Your task to perform on an android device: Clear the cart on newegg.com. Search for macbook on newegg.com, select the first entry, add it to the cart, then select checkout. Image 0: 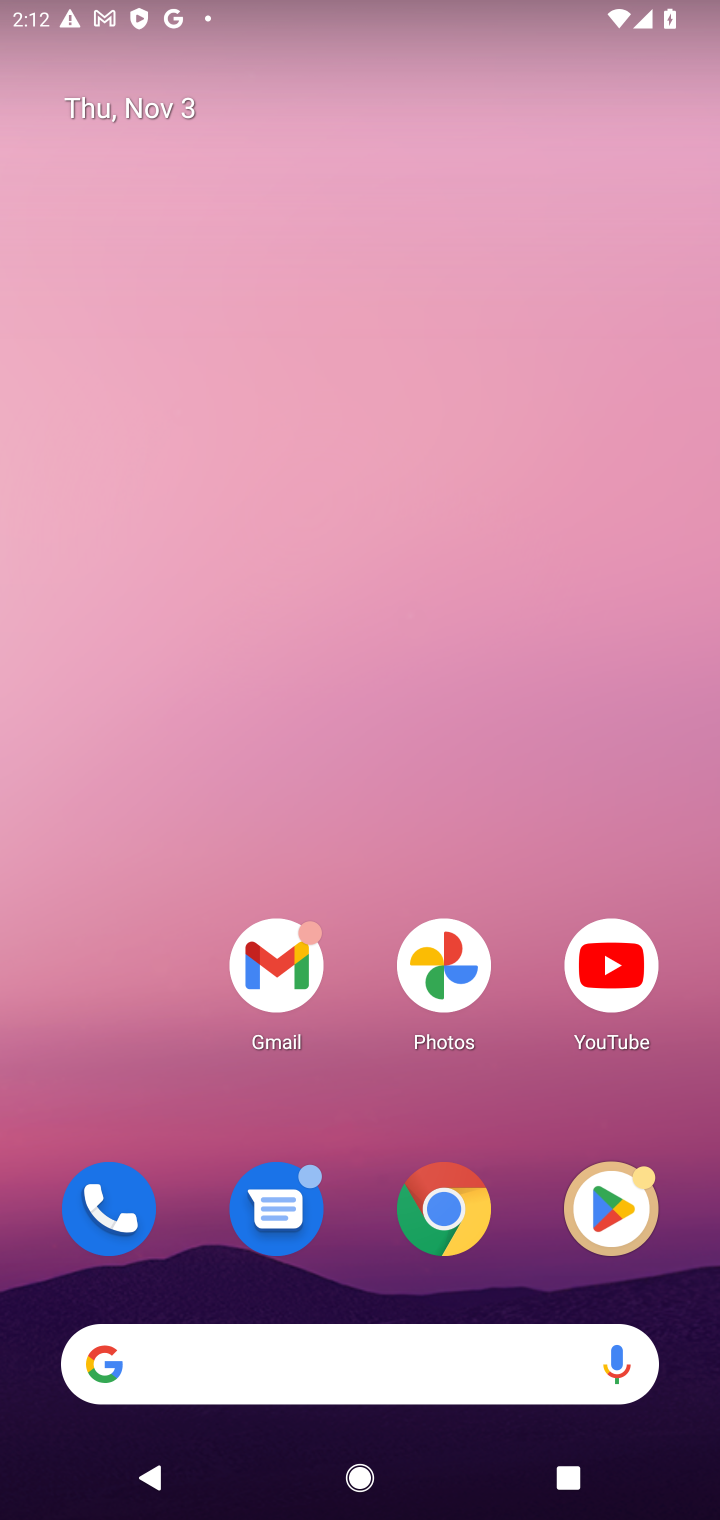
Step 0: click (234, 1358)
Your task to perform on an android device: Clear the cart on newegg.com. Search for macbook on newegg.com, select the first entry, add it to the cart, then select checkout. Image 1: 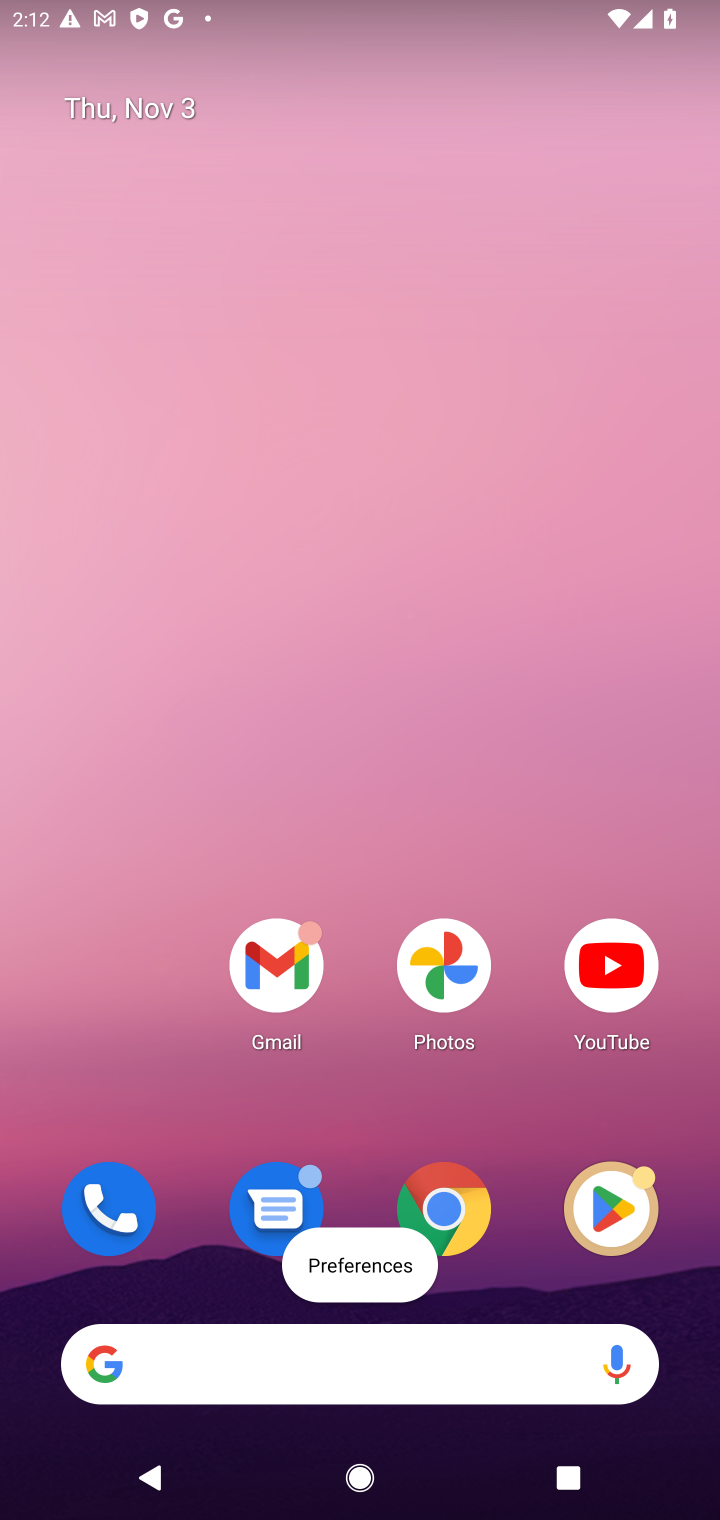
Step 1: click (236, 1358)
Your task to perform on an android device: Clear the cart on newegg.com. Search for macbook on newegg.com, select the first entry, add it to the cart, then select checkout. Image 2: 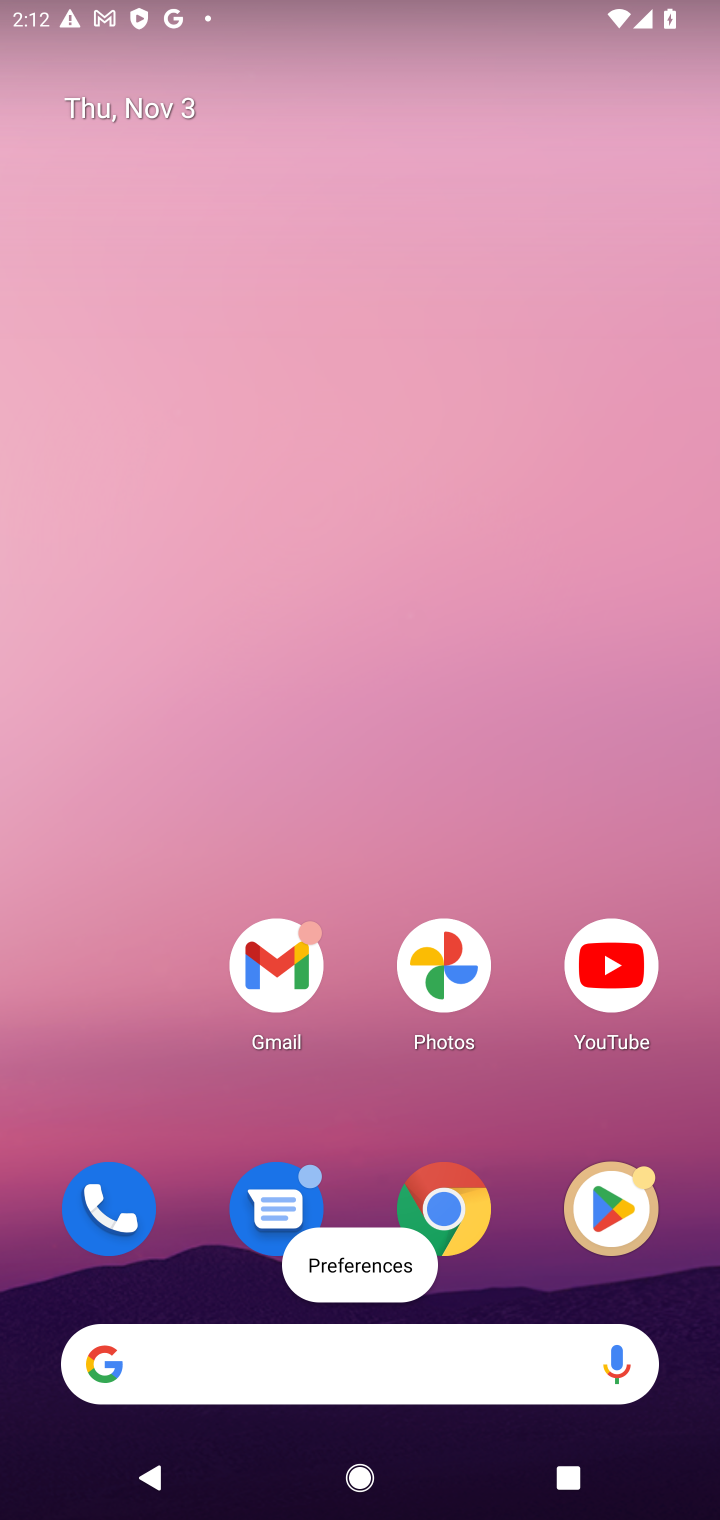
Step 2: click (236, 1358)
Your task to perform on an android device: Clear the cart on newegg.com. Search for macbook on newegg.com, select the first entry, add it to the cart, then select checkout. Image 3: 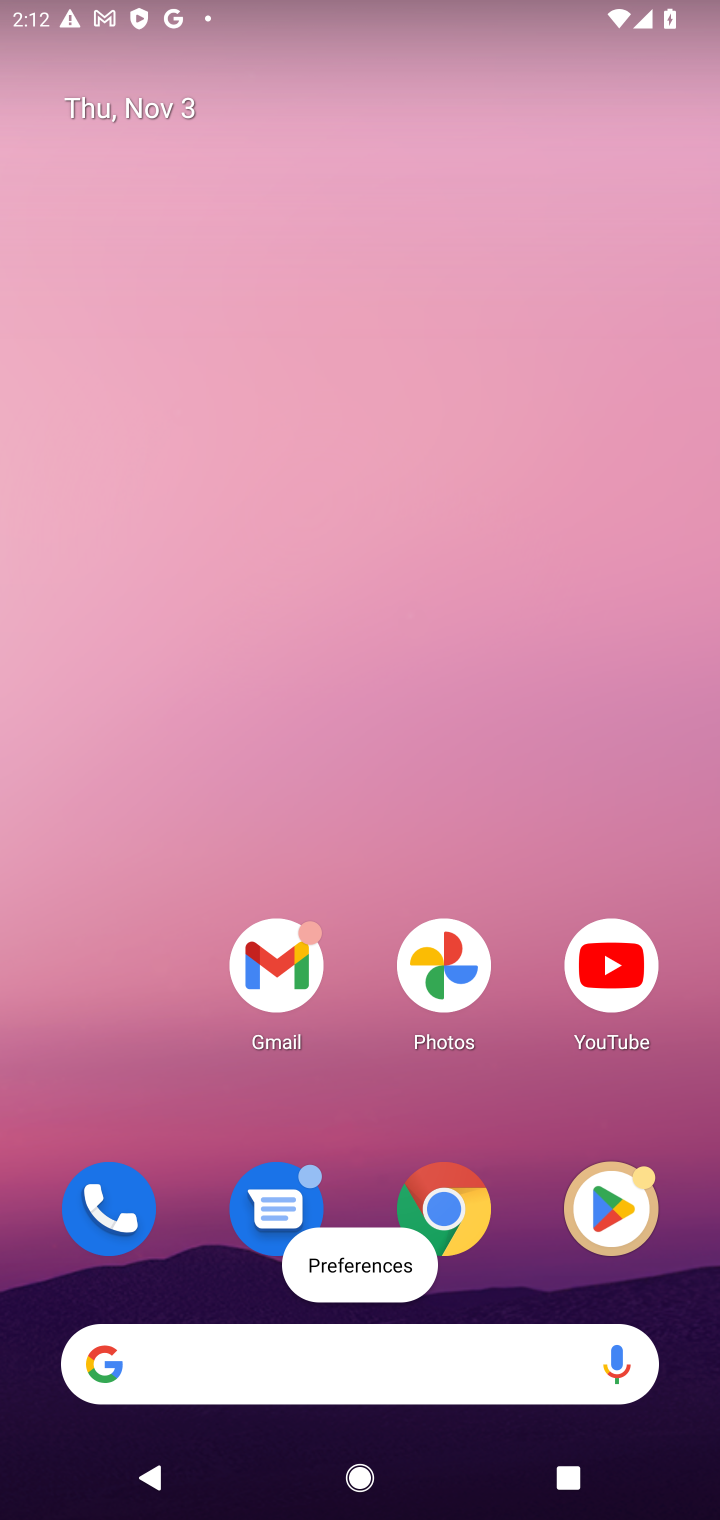
Step 3: click (103, 1363)
Your task to perform on an android device: Clear the cart on newegg.com. Search for macbook on newegg.com, select the first entry, add it to the cart, then select checkout. Image 4: 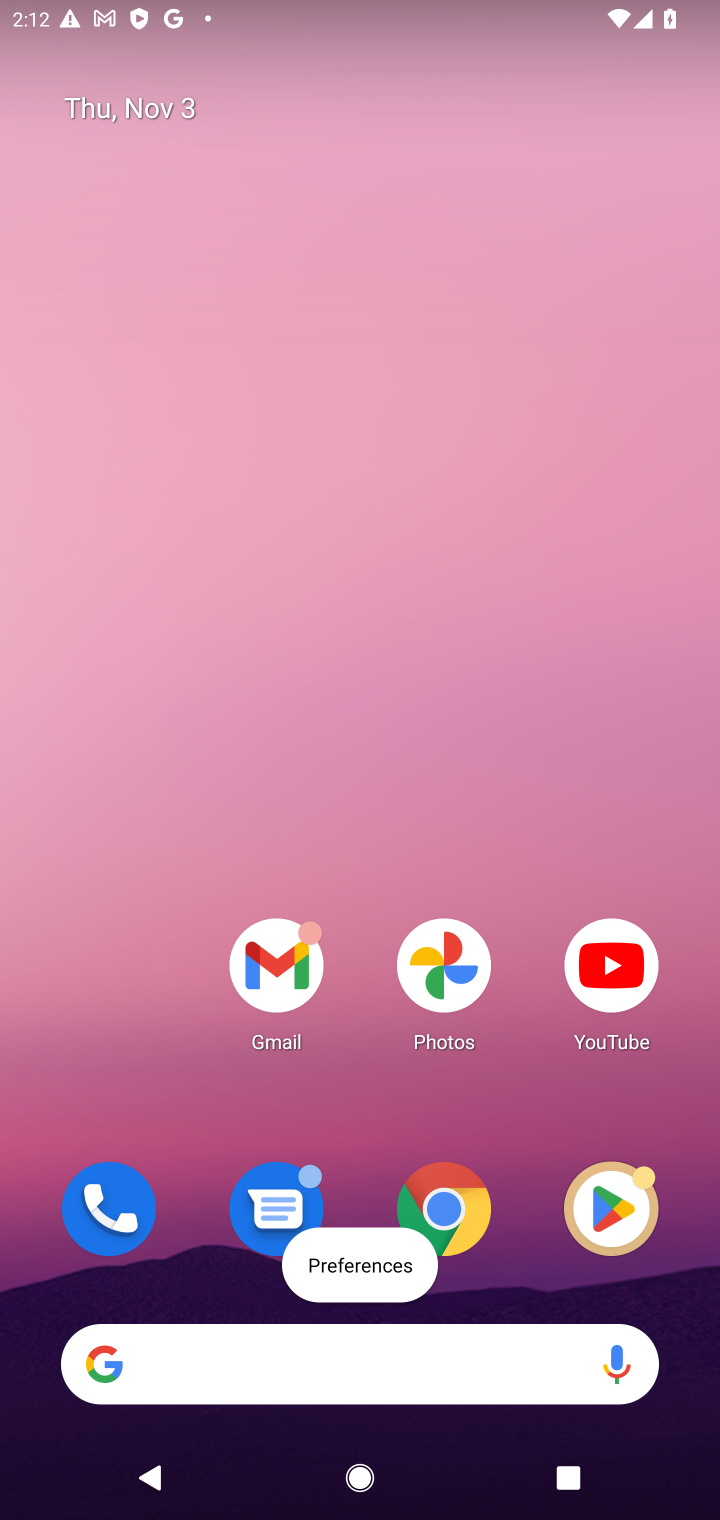
Step 4: click (103, 1363)
Your task to perform on an android device: Clear the cart on newegg.com. Search for macbook on newegg.com, select the first entry, add it to the cart, then select checkout. Image 5: 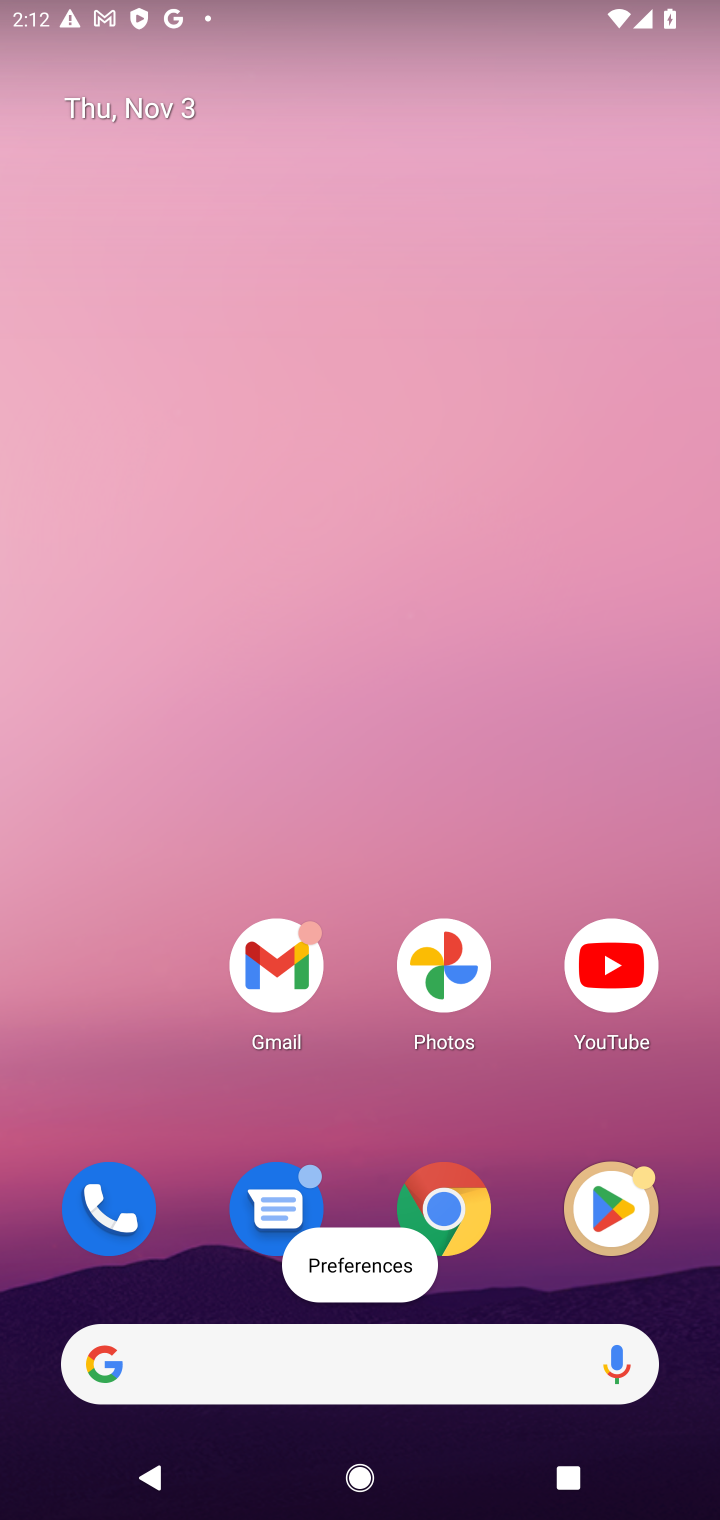
Step 5: click (176, 1341)
Your task to perform on an android device: Clear the cart on newegg.com. Search for macbook on newegg.com, select the first entry, add it to the cart, then select checkout. Image 6: 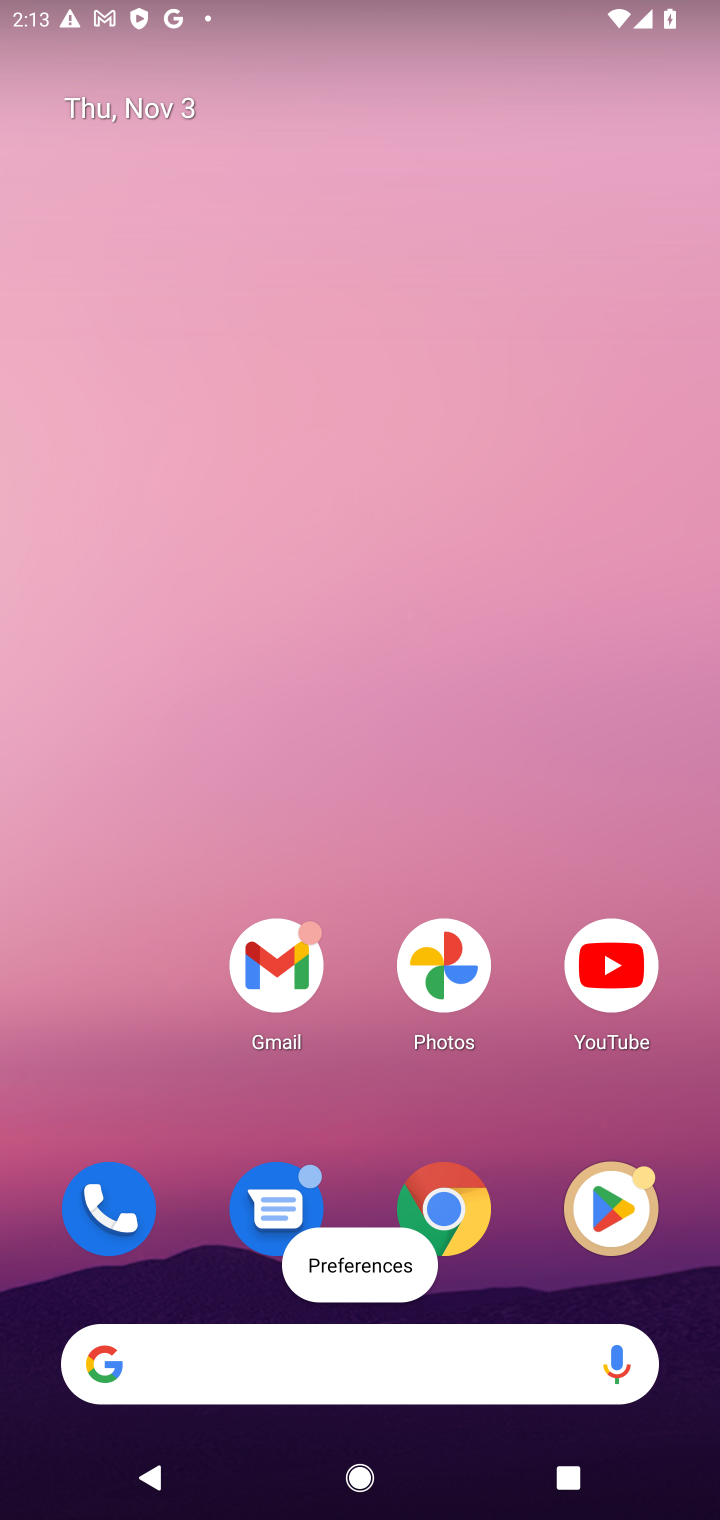
Step 6: click (468, 1359)
Your task to perform on an android device: Clear the cart on newegg.com. Search for macbook on newegg.com, select the first entry, add it to the cart, then select checkout. Image 7: 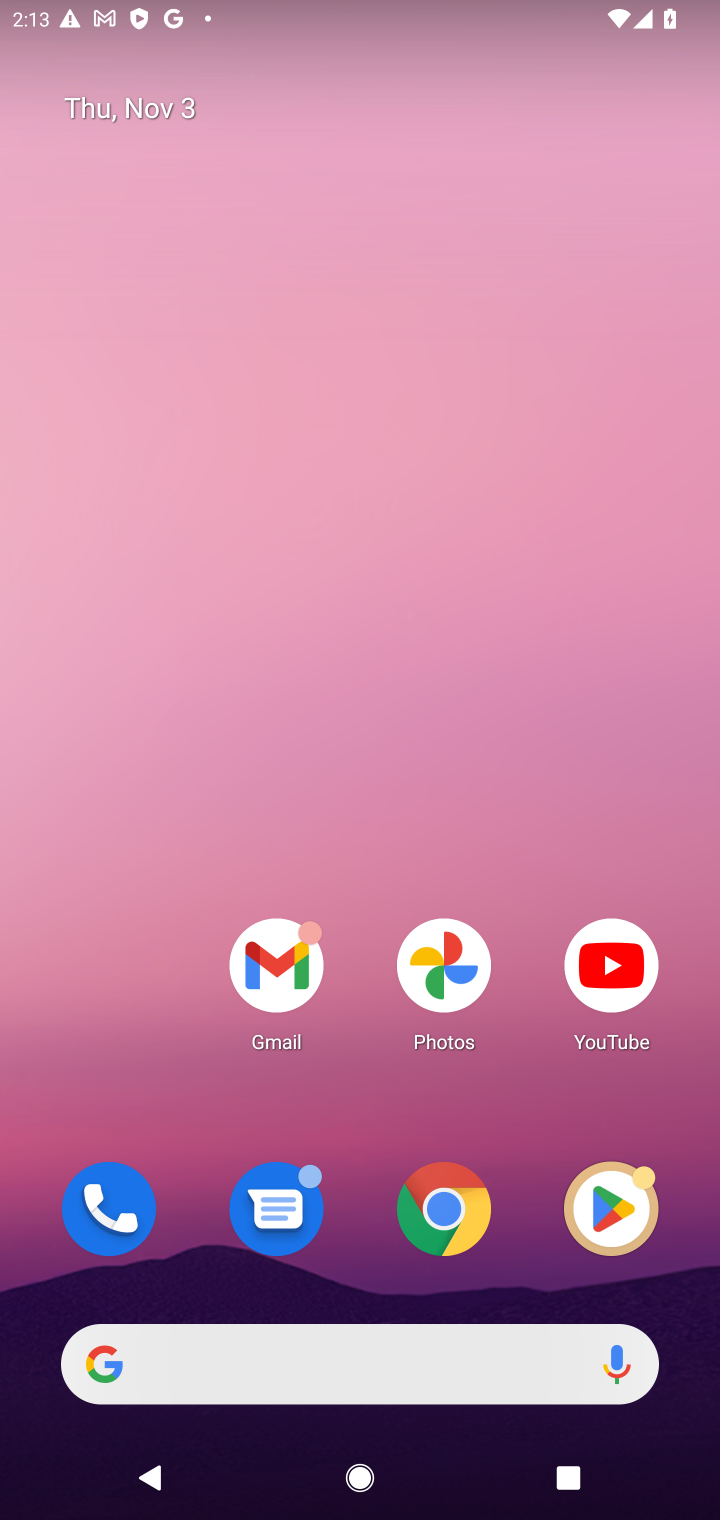
Step 7: click (445, 1223)
Your task to perform on an android device: Clear the cart on newegg.com. Search for macbook on newegg.com, select the first entry, add it to the cart, then select checkout. Image 8: 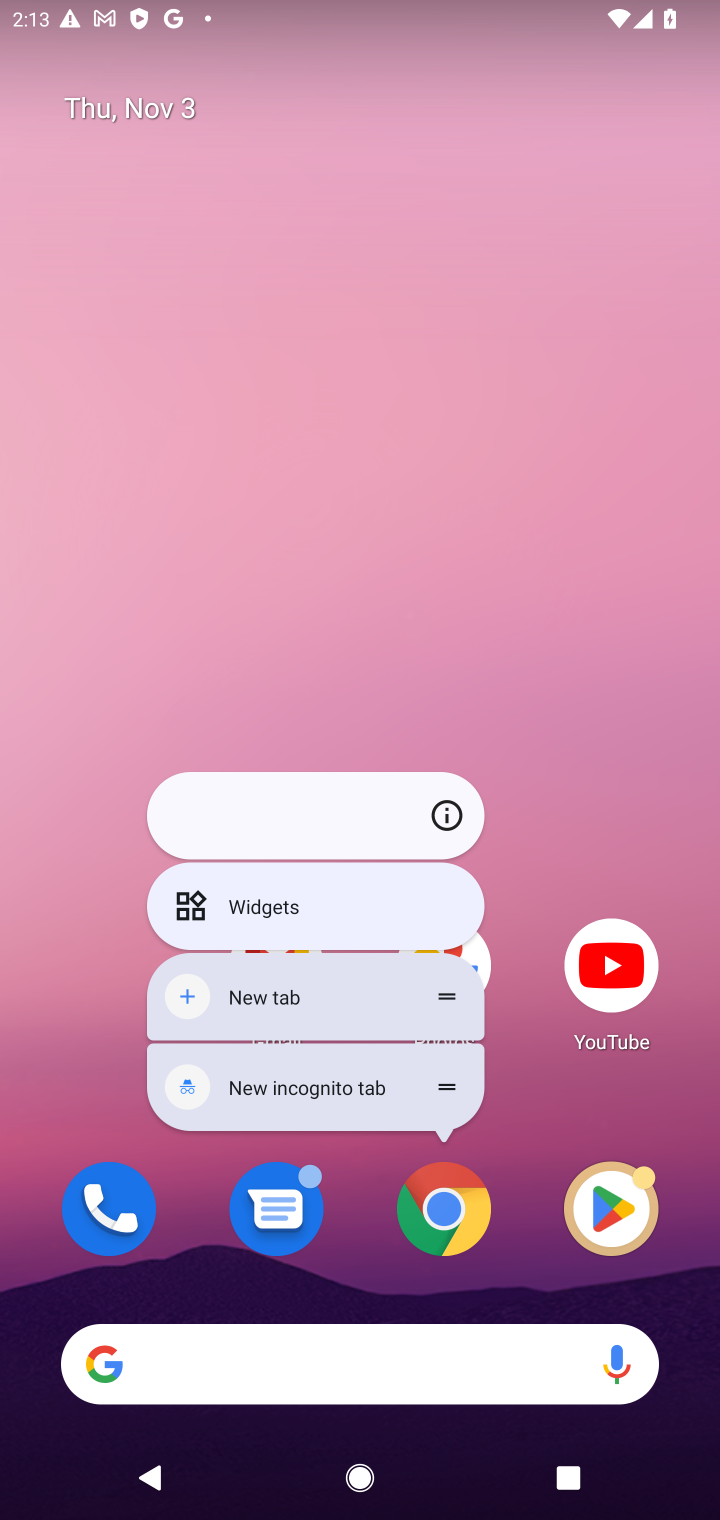
Step 8: click (445, 1223)
Your task to perform on an android device: Clear the cart on newegg.com. Search for macbook on newegg.com, select the first entry, add it to the cart, then select checkout. Image 9: 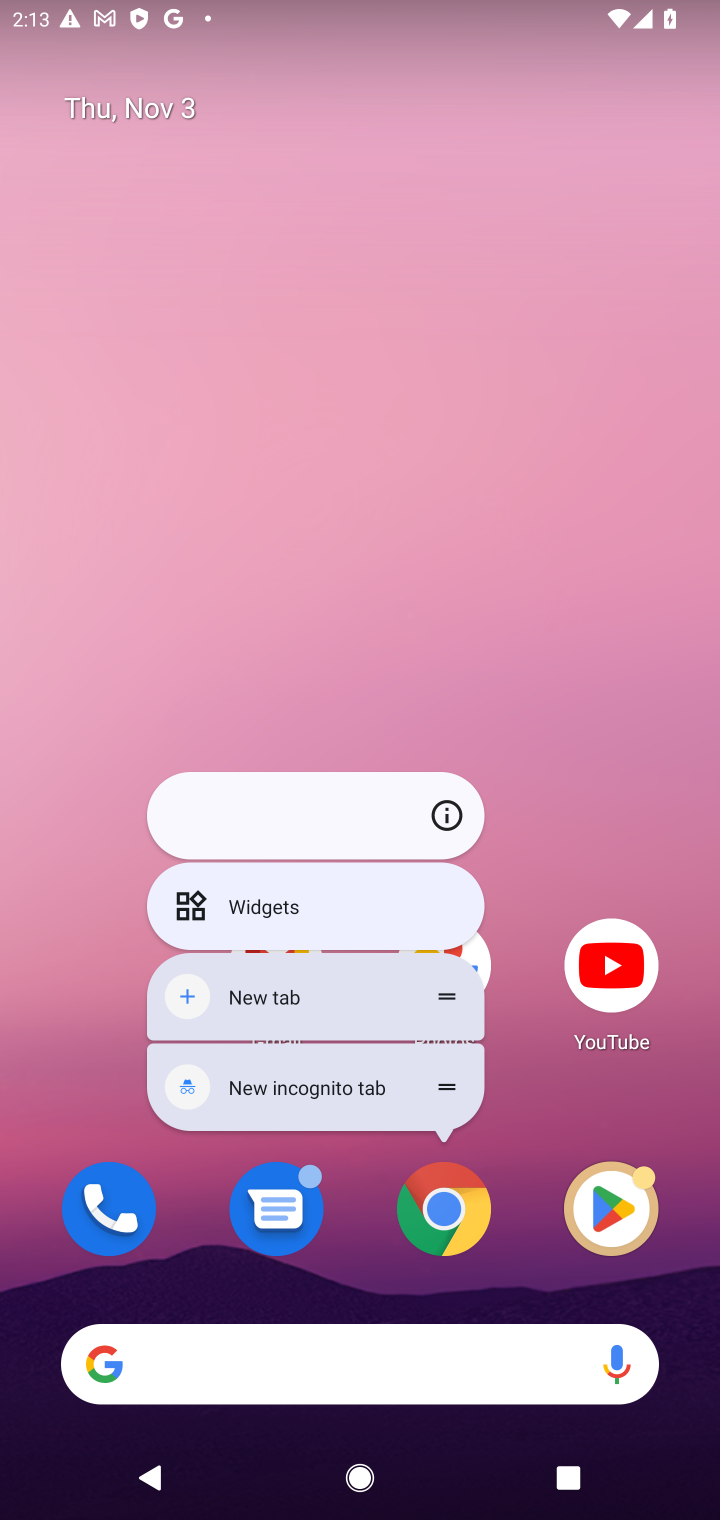
Step 9: click (445, 1223)
Your task to perform on an android device: Clear the cart on newegg.com. Search for macbook on newegg.com, select the first entry, add it to the cart, then select checkout. Image 10: 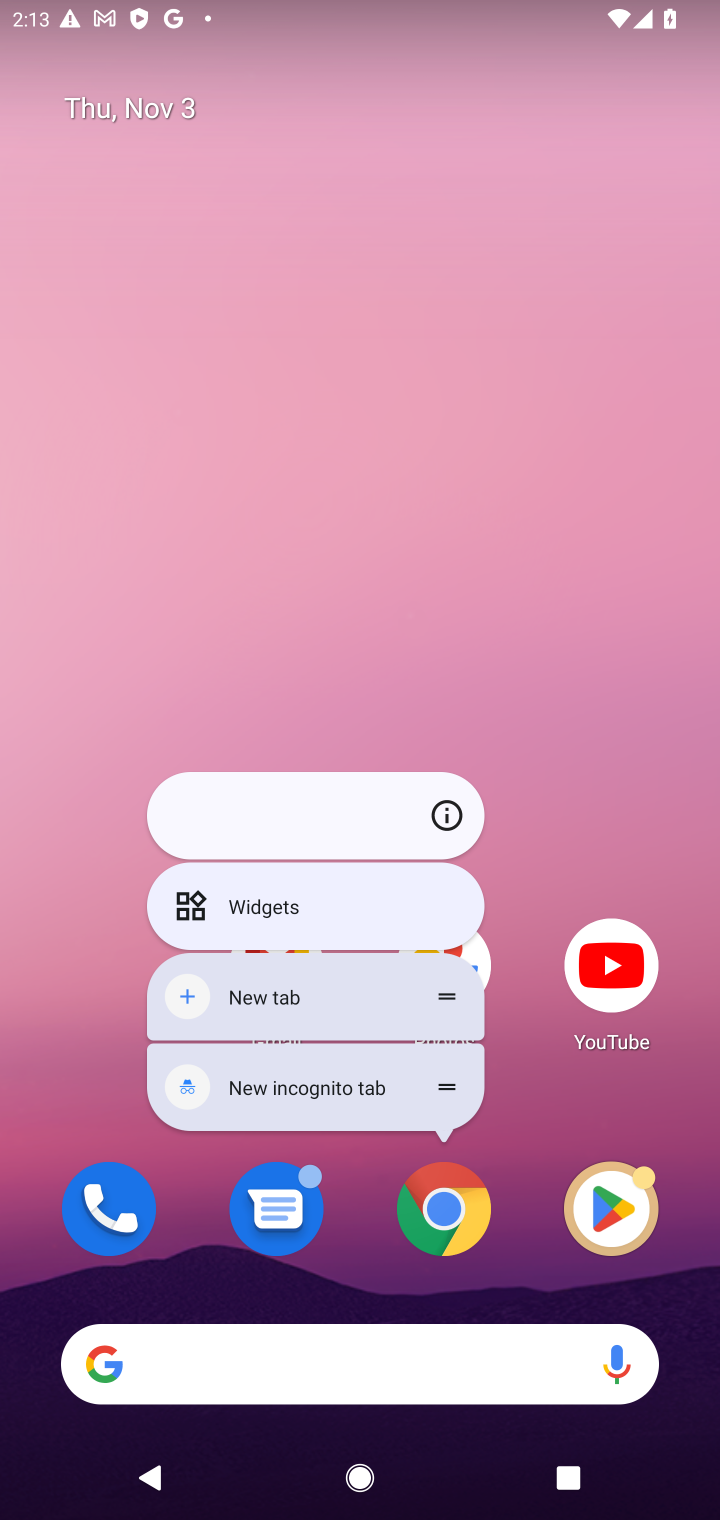
Step 10: click (461, 1239)
Your task to perform on an android device: Clear the cart on newegg.com. Search for macbook on newegg.com, select the first entry, add it to the cart, then select checkout. Image 11: 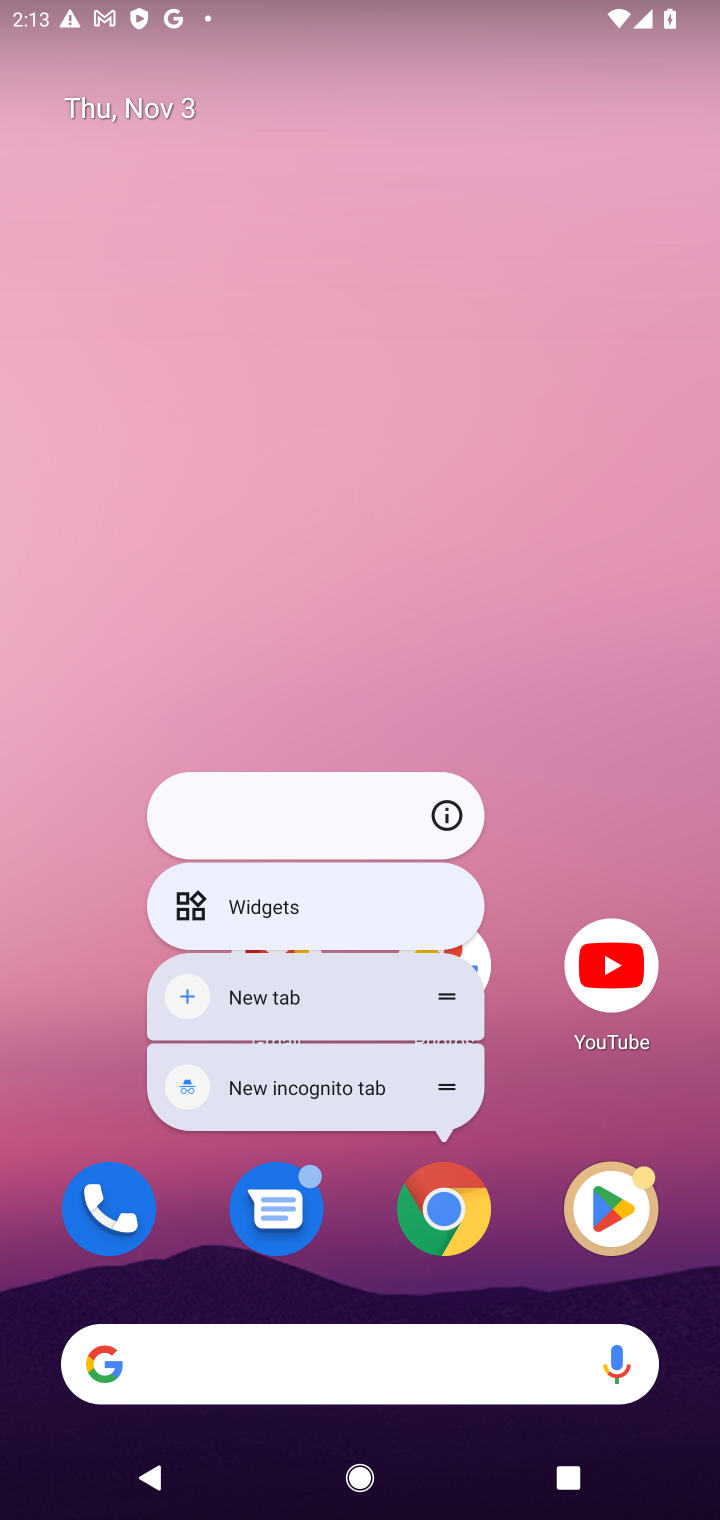
Step 11: click (440, 554)
Your task to perform on an android device: Clear the cart on newegg.com. Search for macbook on newegg.com, select the first entry, add it to the cart, then select checkout. Image 12: 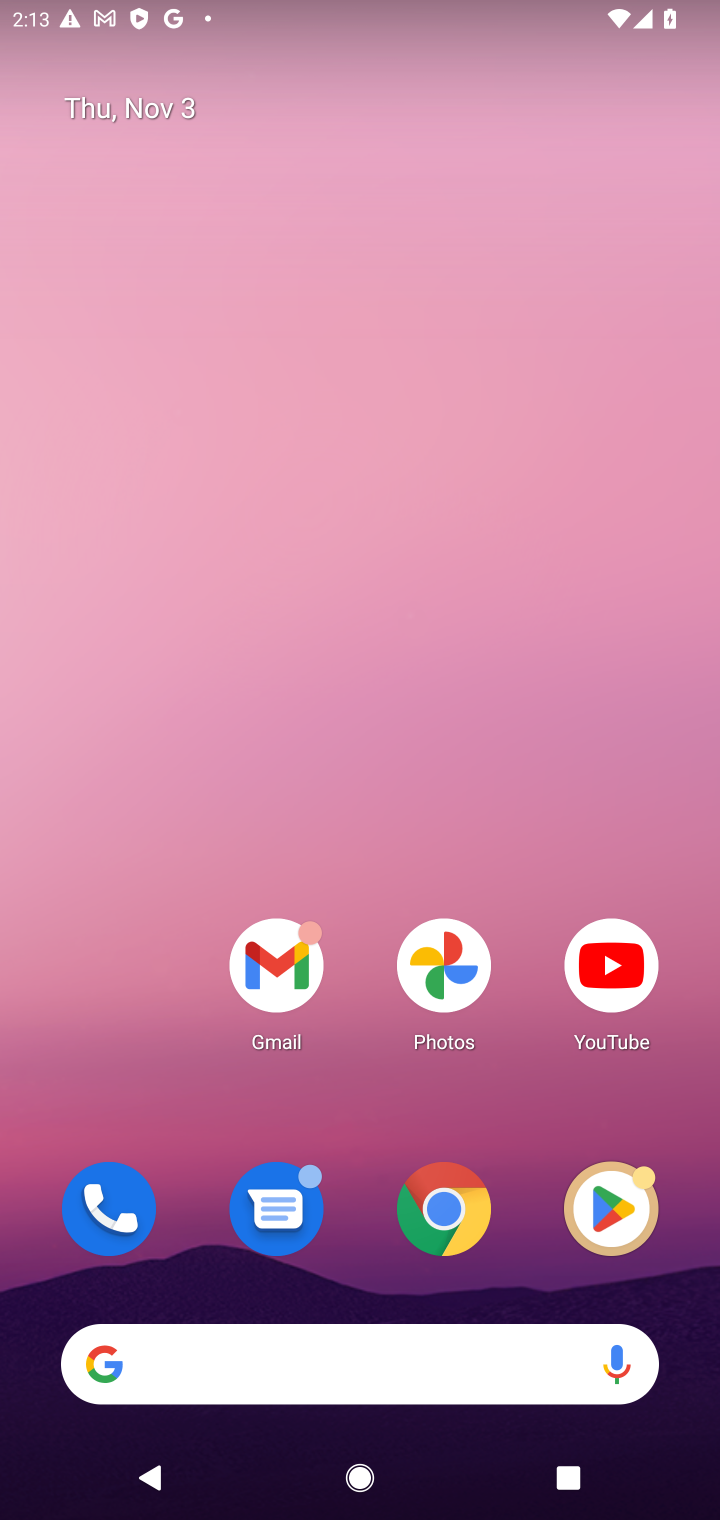
Step 12: click (449, 1216)
Your task to perform on an android device: Clear the cart on newegg.com. Search for macbook on newegg.com, select the first entry, add it to the cart, then select checkout. Image 13: 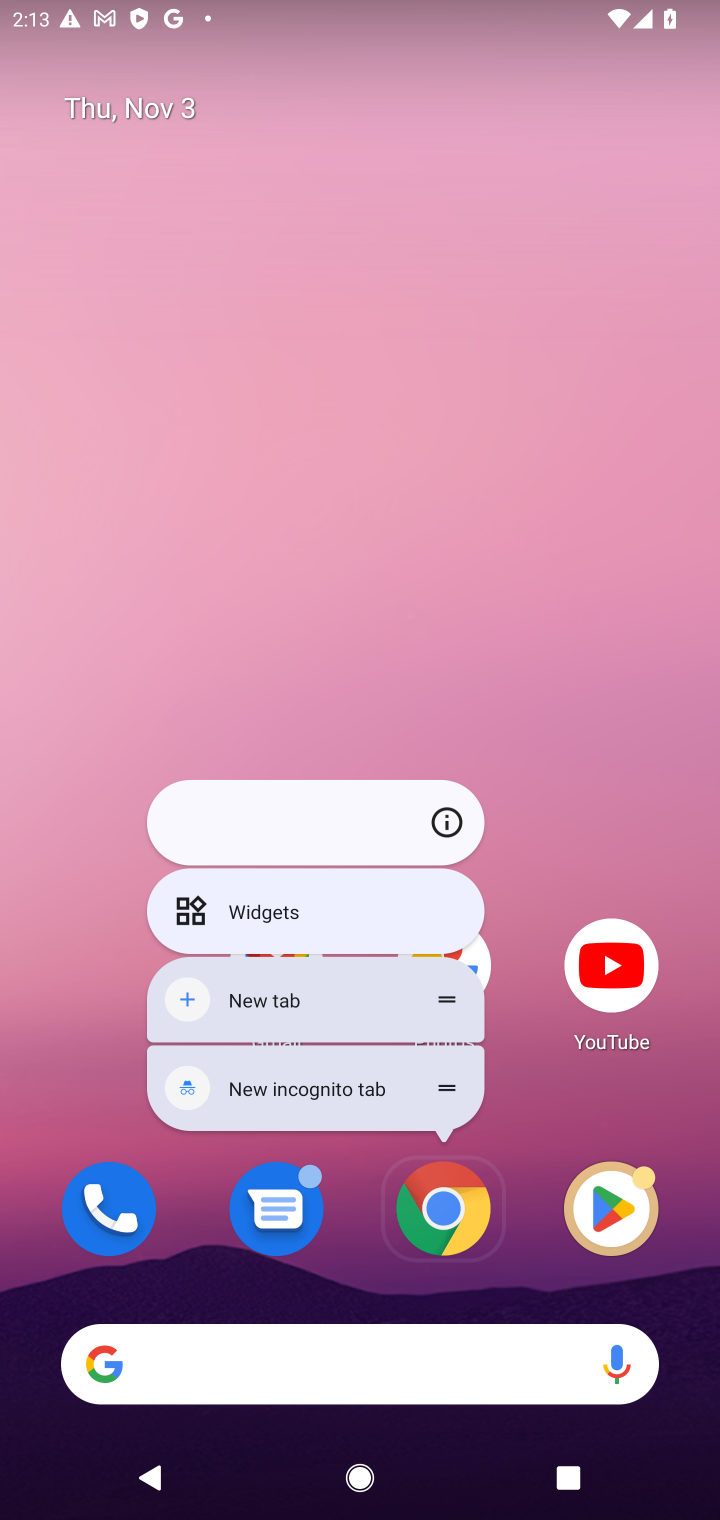
Step 13: click (449, 1216)
Your task to perform on an android device: Clear the cart on newegg.com. Search for macbook on newegg.com, select the first entry, add it to the cart, then select checkout. Image 14: 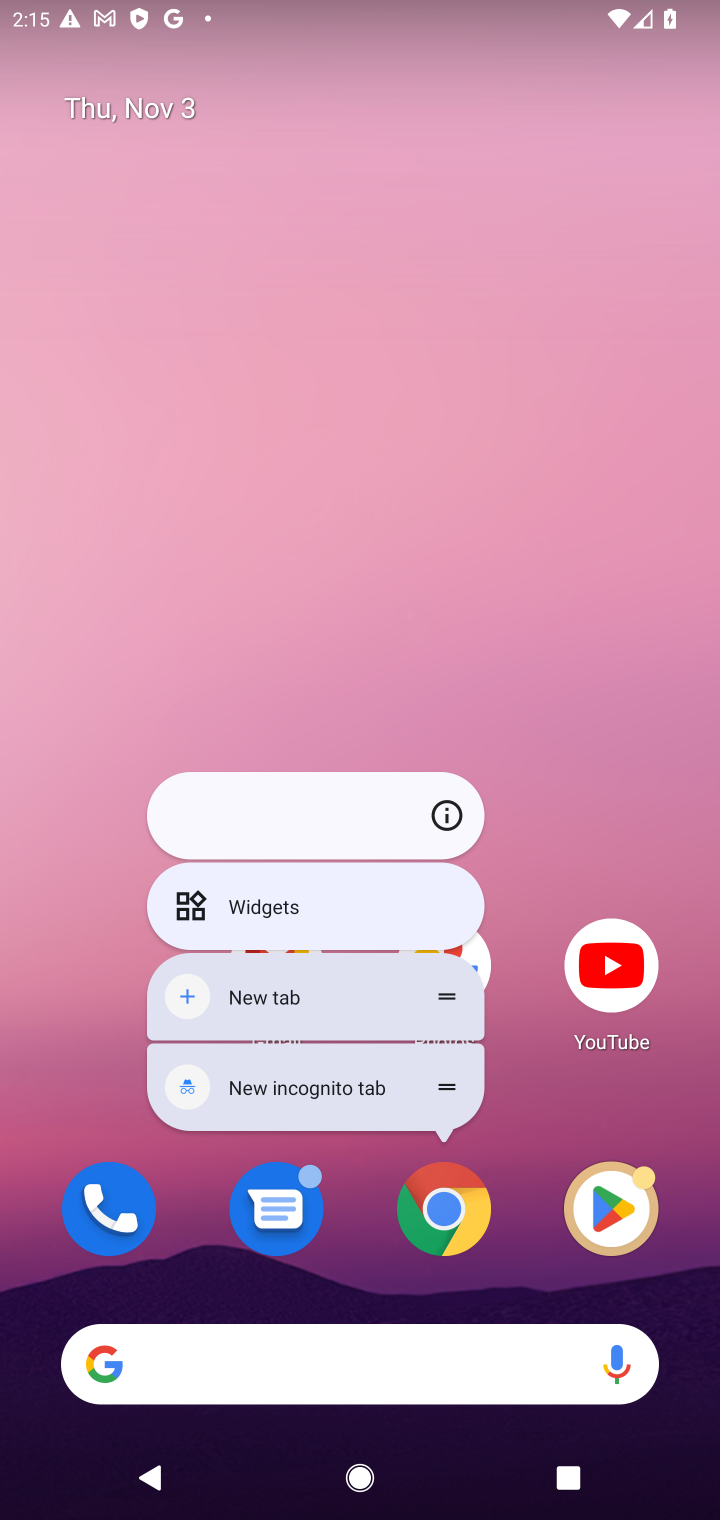
Step 14: click (608, 1235)
Your task to perform on an android device: Clear the cart on newegg.com. Search for macbook on newegg.com, select the first entry, add it to the cart, then select checkout. Image 15: 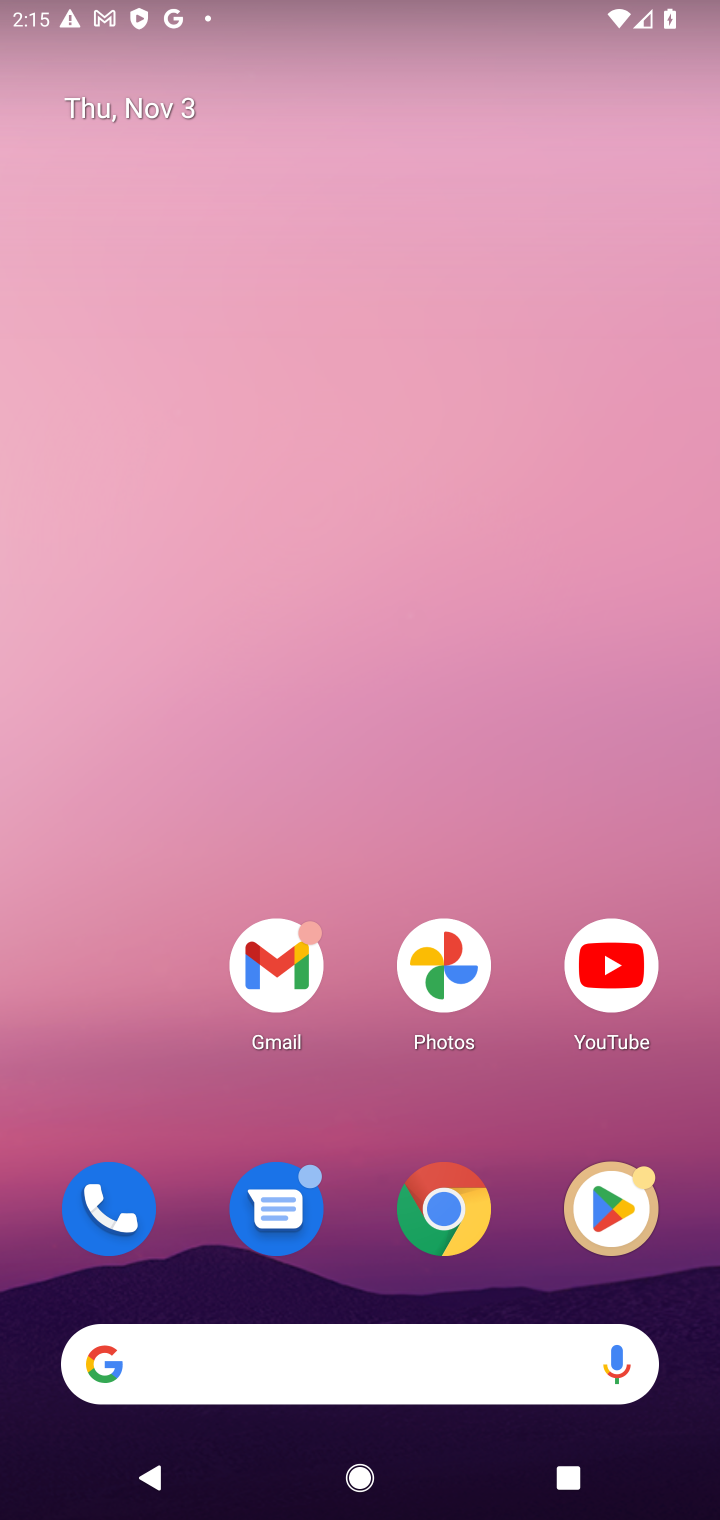
Step 15: click (475, 1217)
Your task to perform on an android device: Clear the cart on newegg.com. Search for macbook on newegg.com, select the first entry, add it to the cart, then select checkout. Image 16: 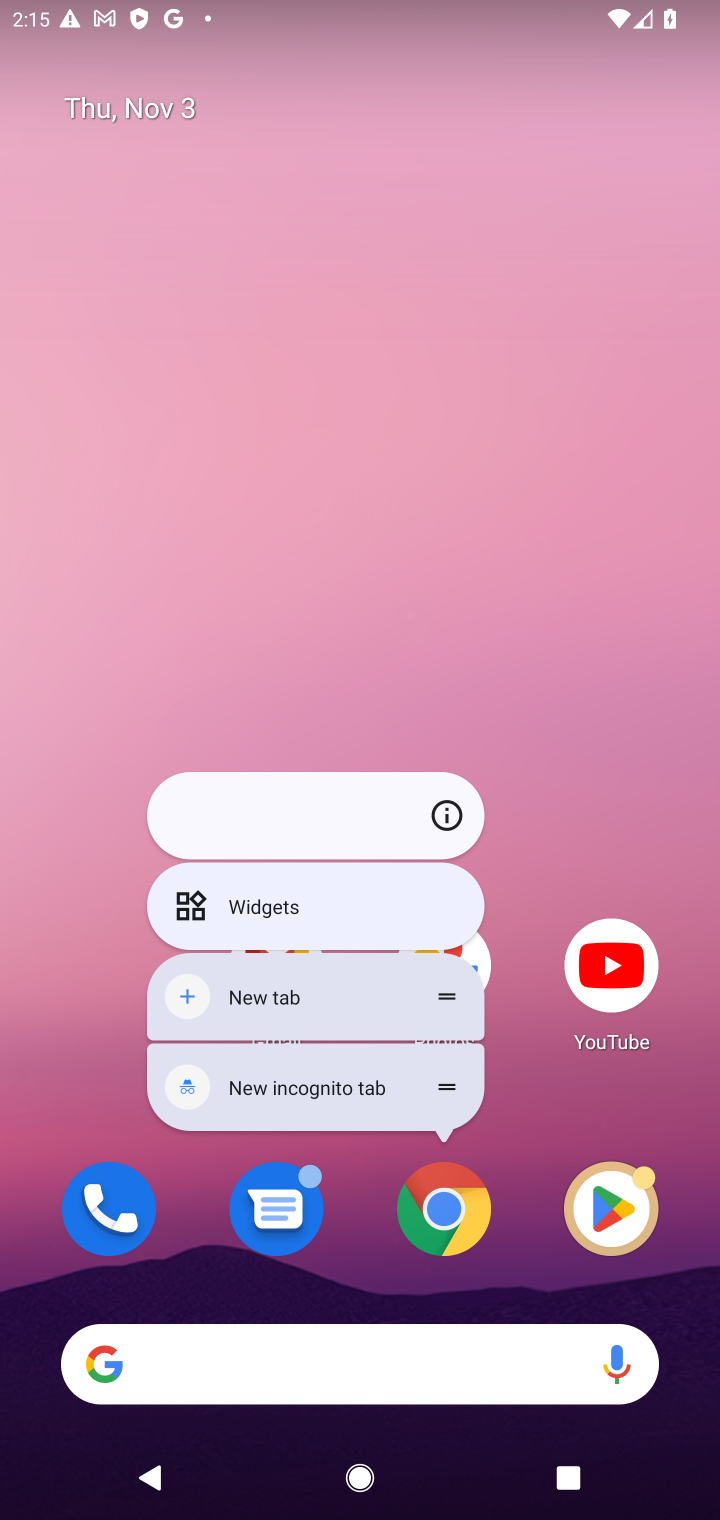
Step 16: click (472, 1219)
Your task to perform on an android device: Clear the cart on newegg.com. Search for macbook on newegg.com, select the first entry, add it to the cart, then select checkout. Image 17: 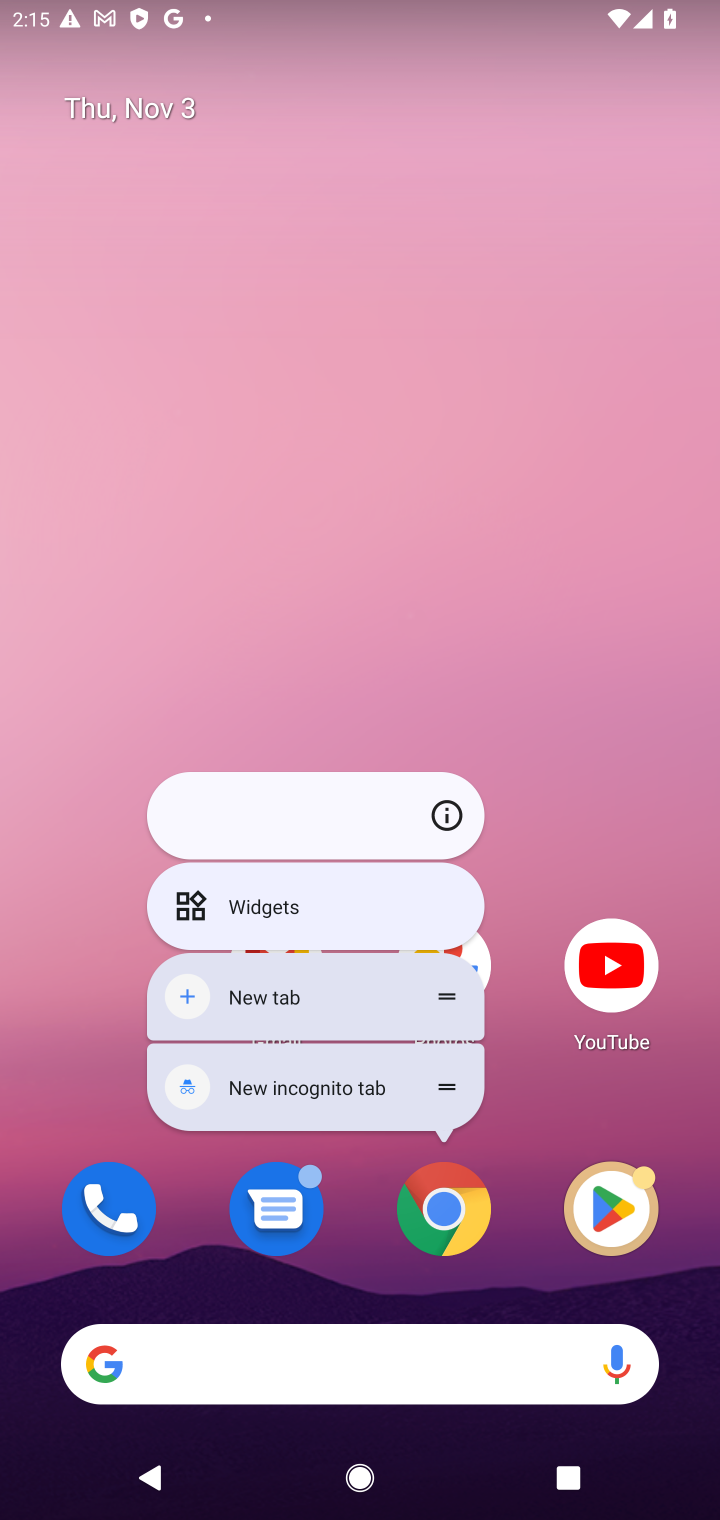
Step 17: click (472, 1219)
Your task to perform on an android device: Clear the cart on newegg.com. Search for macbook on newegg.com, select the first entry, add it to the cart, then select checkout. Image 18: 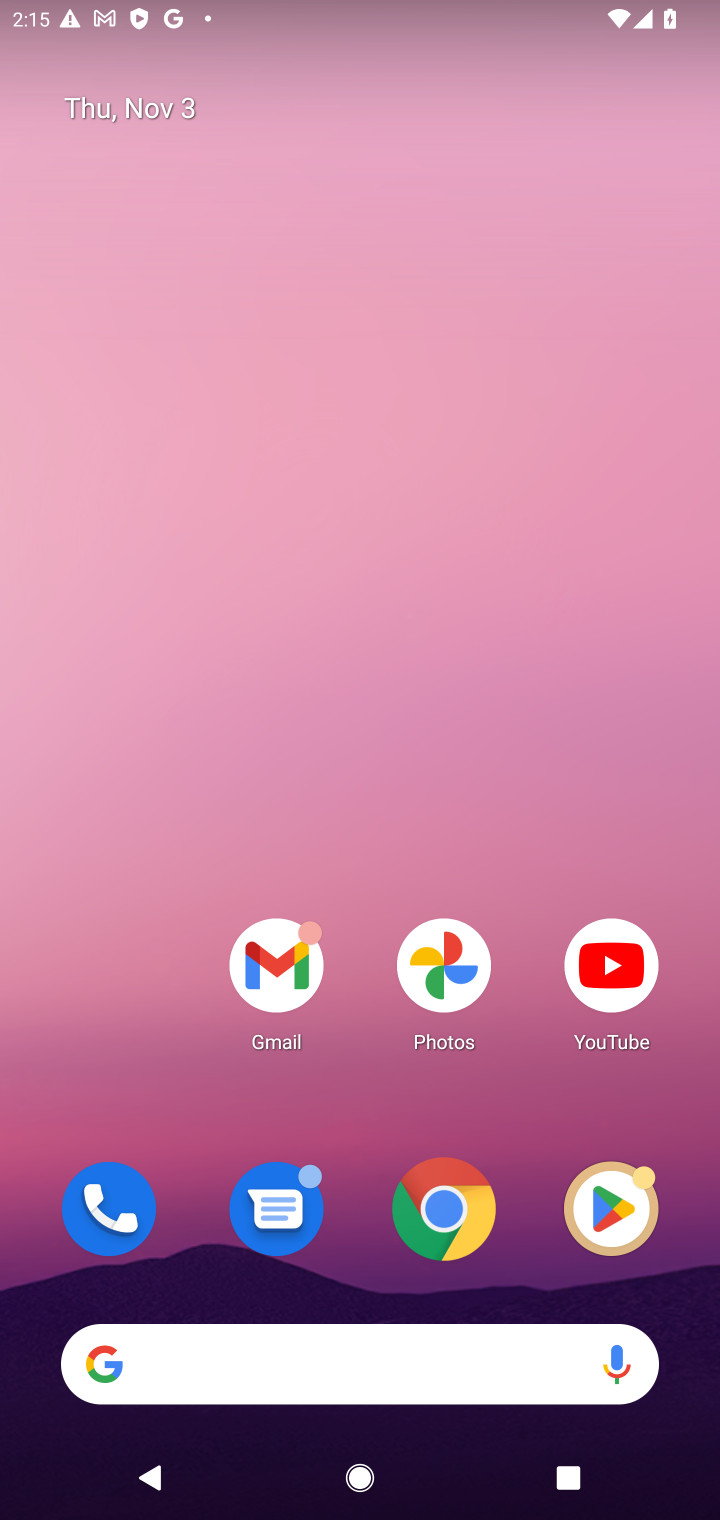
Step 18: click (454, 1210)
Your task to perform on an android device: Clear the cart on newegg.com. Search for macbook on newegg.com, select the first entry, add it to the cart, then select checkout. Image 19: 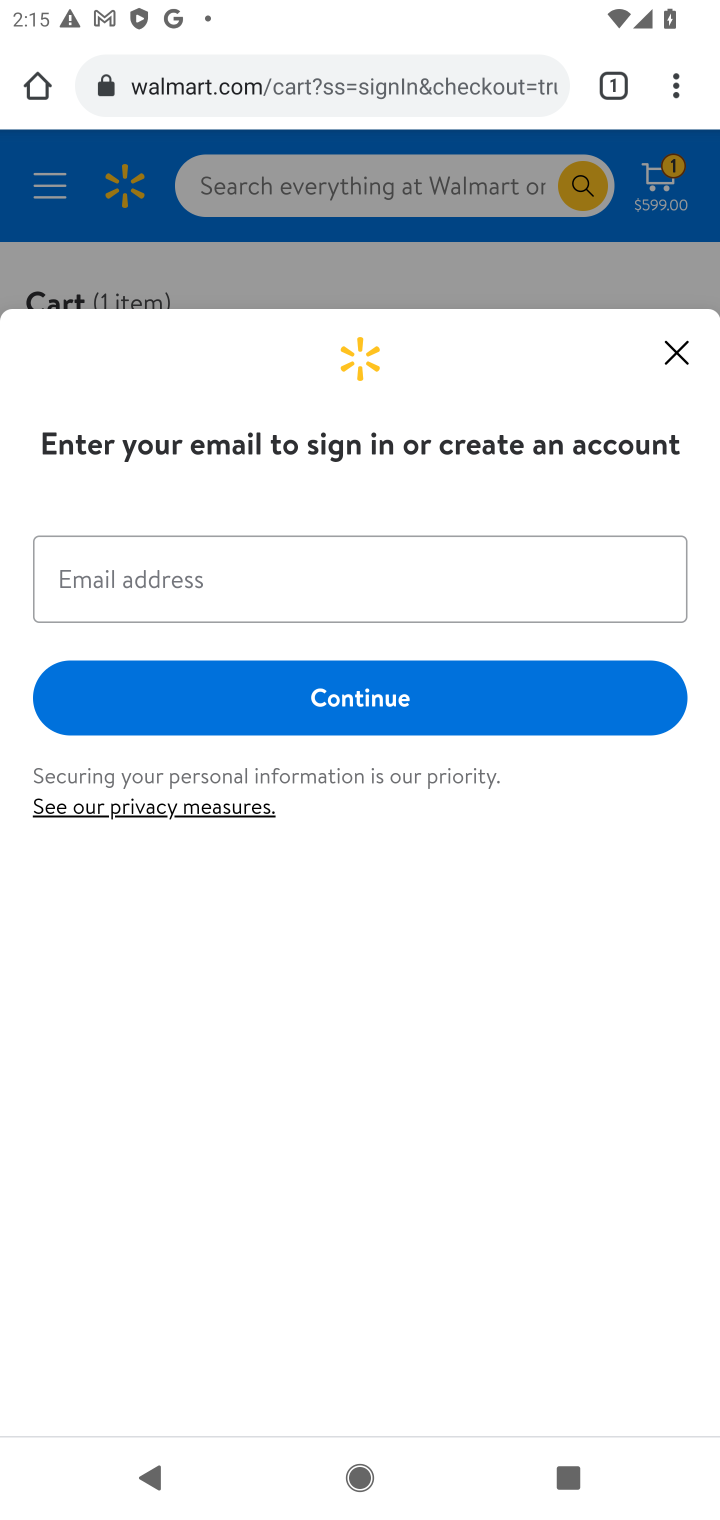
Step 19: click (226, 98)
Your task to perform on an android device: Clear the cart on newegg.com. Search for macbook on newegg.com, select the first entry, add it to the cart, then select checkout. Image 20: 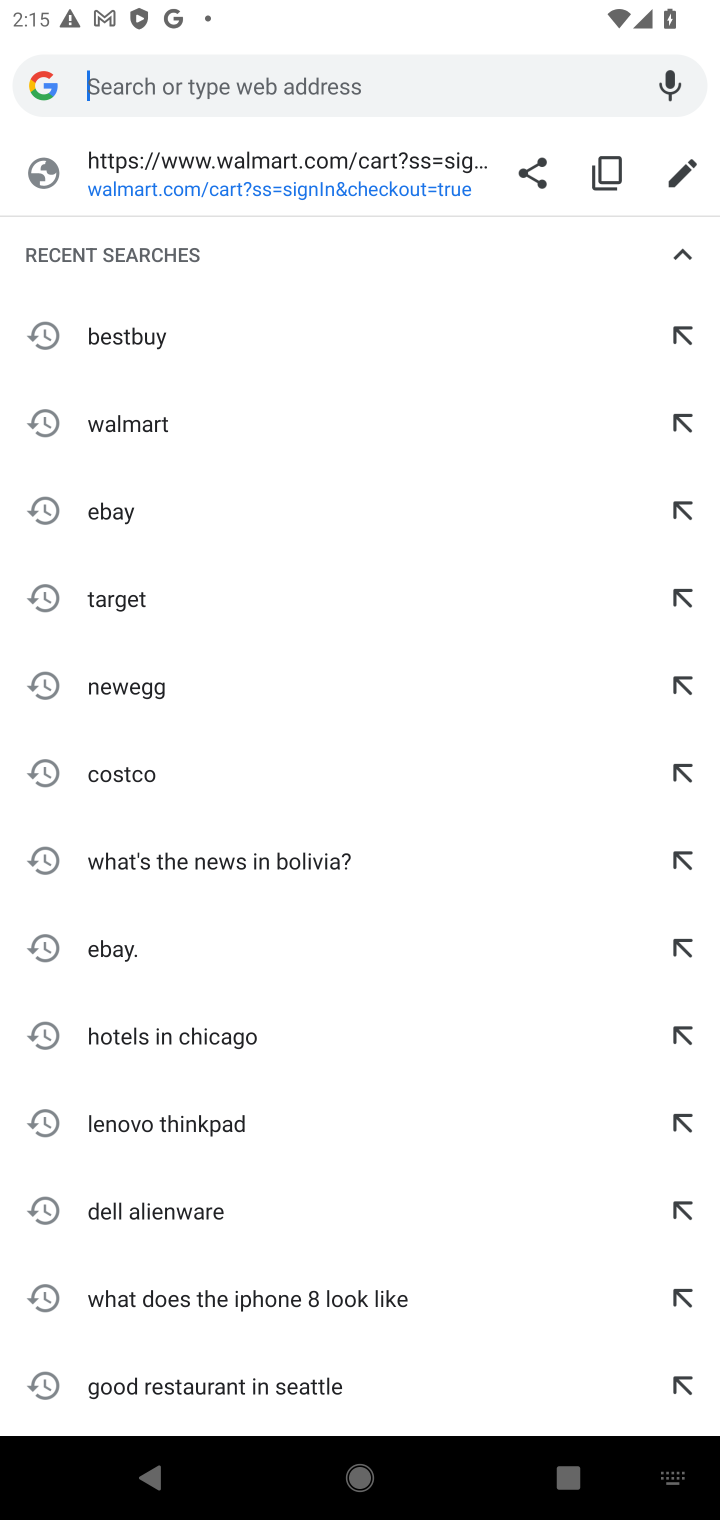
Step 20: type "newegg.com"
Your task to perform on an android device: Clear the cart on newegg.com. Search for macbook on newegg.com, select the first entry, add it to the cart, then select checkout. Image 21: 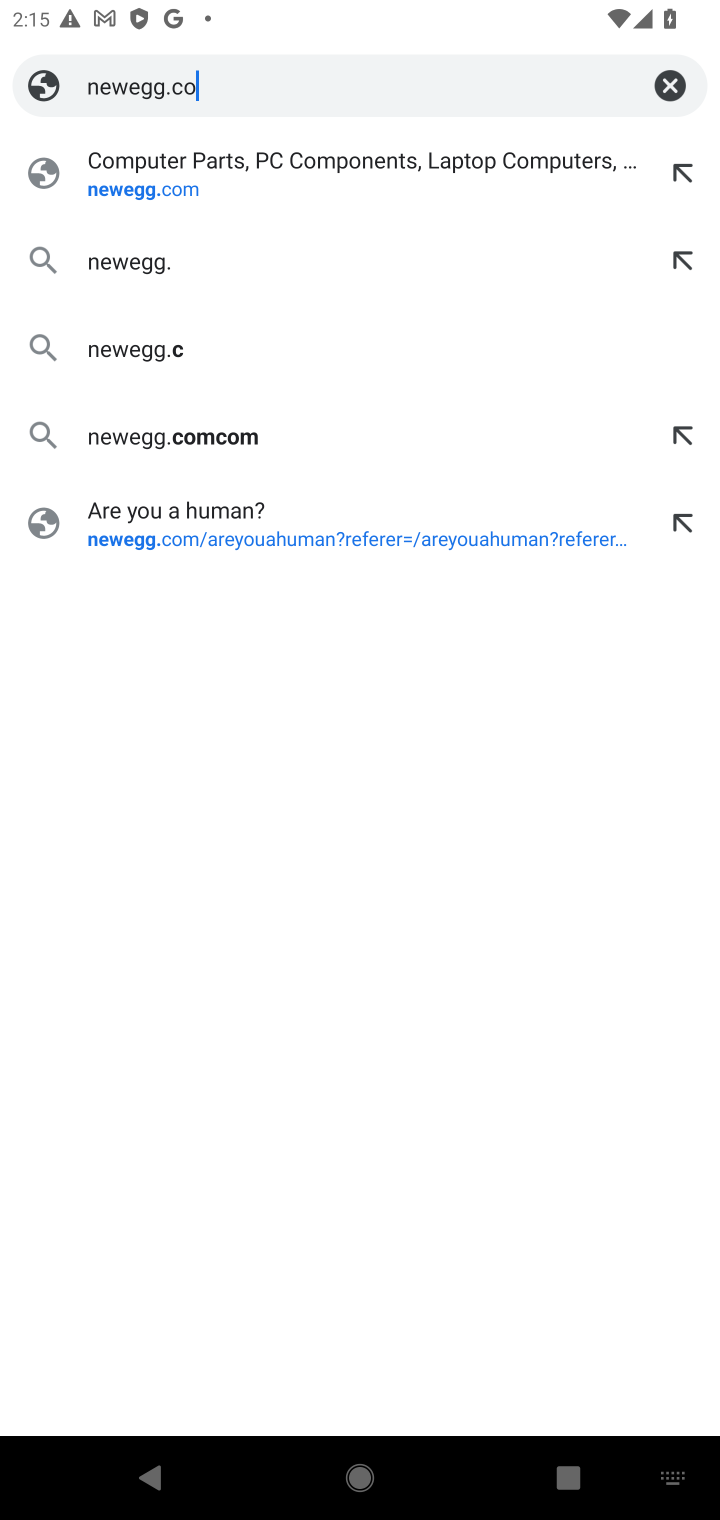
Step 21: type ""
Your task to perform on an android device: Clear the cart on newegg.com. Search for macbook on newegg.com, select the first entry, add it to the cart, then select checkout. Image 22: 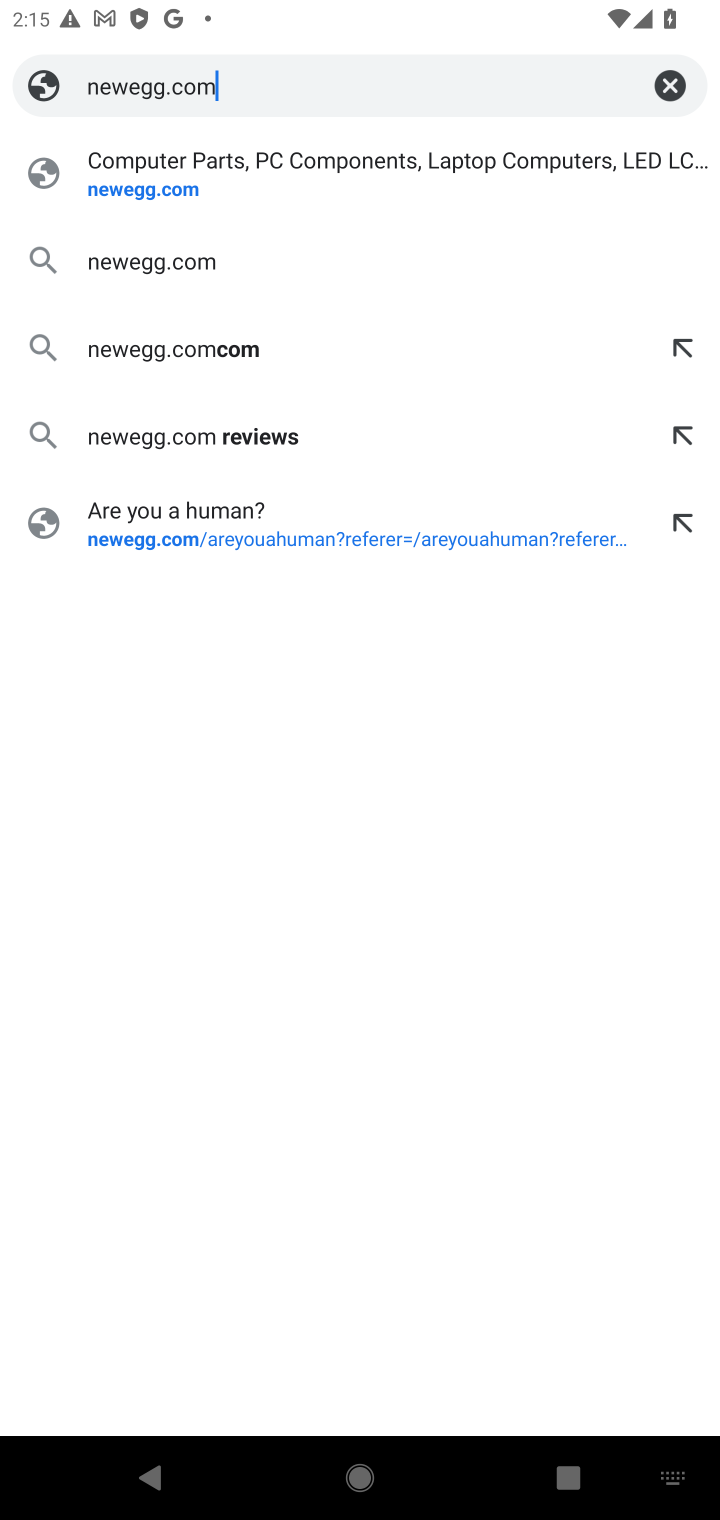
Step 22: click (160, 174)
Your task to perform on an android device: Clear the cart on newegg.com. Search for macbook on newegg.com, select the first entry, add it to the cart, then select checkout. Image 23: 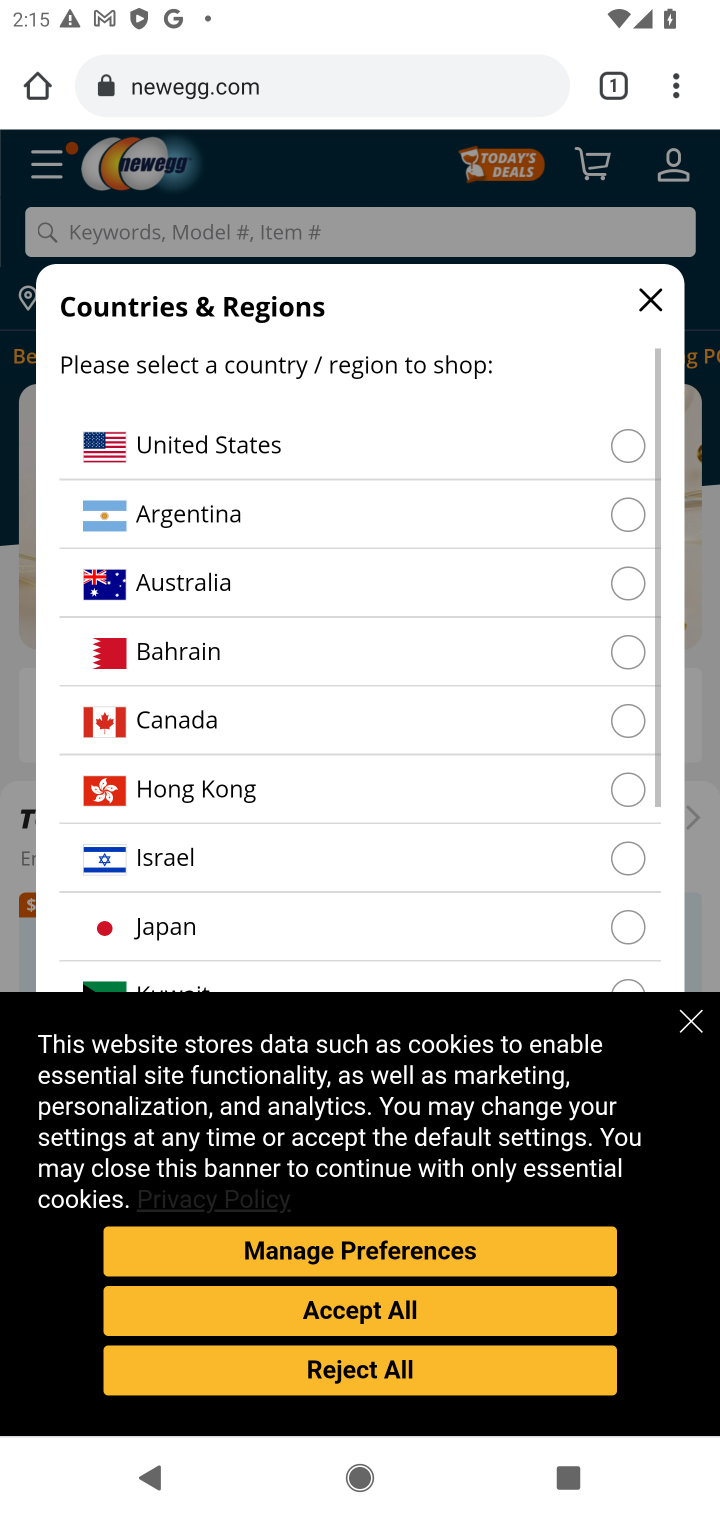
Step 23: click (628, 441)
Your task to perform on an android device: Clear the cart on newegg.com. Search for macbook on newegg.com, select the first entry, add it to the cart, then select checkout. Image 24: 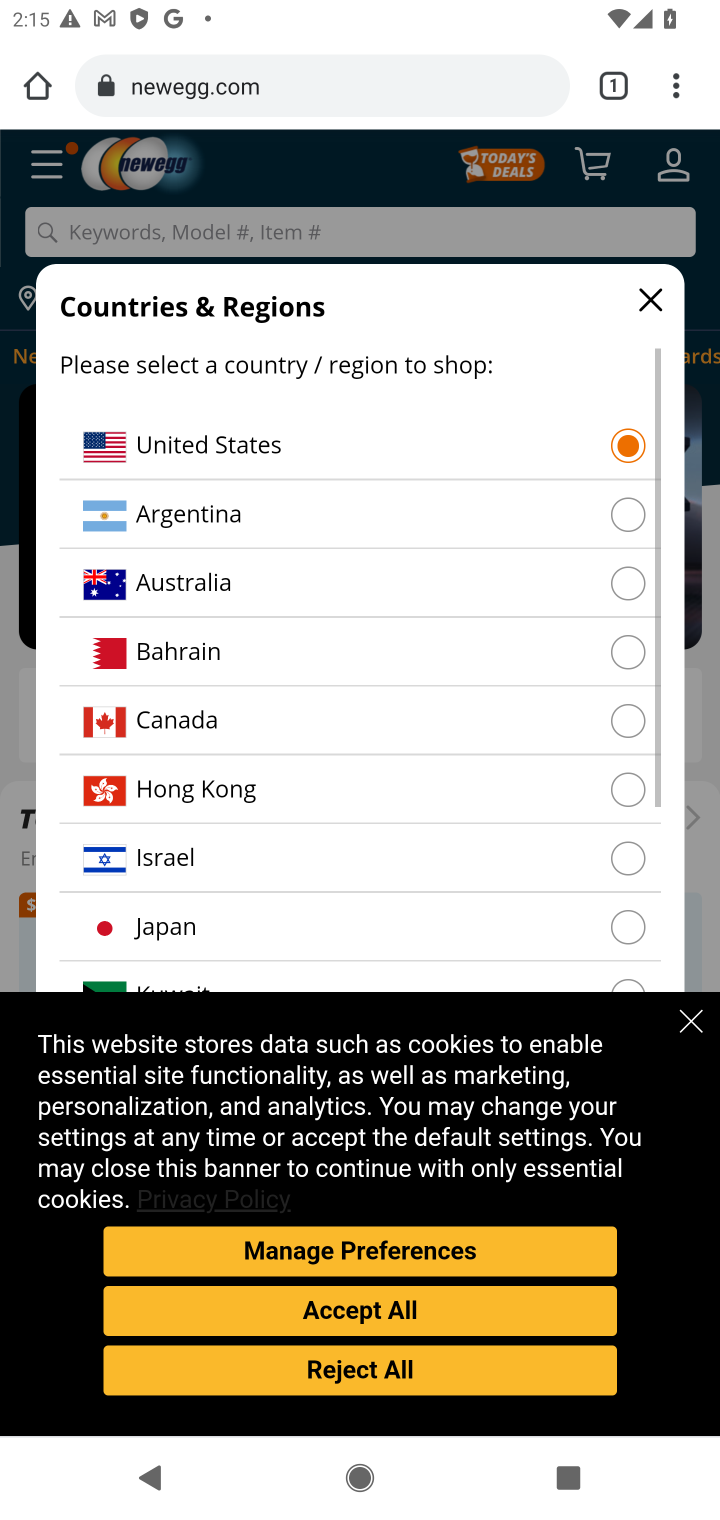
Step 24: click (387, 1369)
Your task to perform on an android device: Clear the cart on newegg.com. Search for macbook on newegg.com, select the first entry, add it to the cart, then select checkout. Image 25: 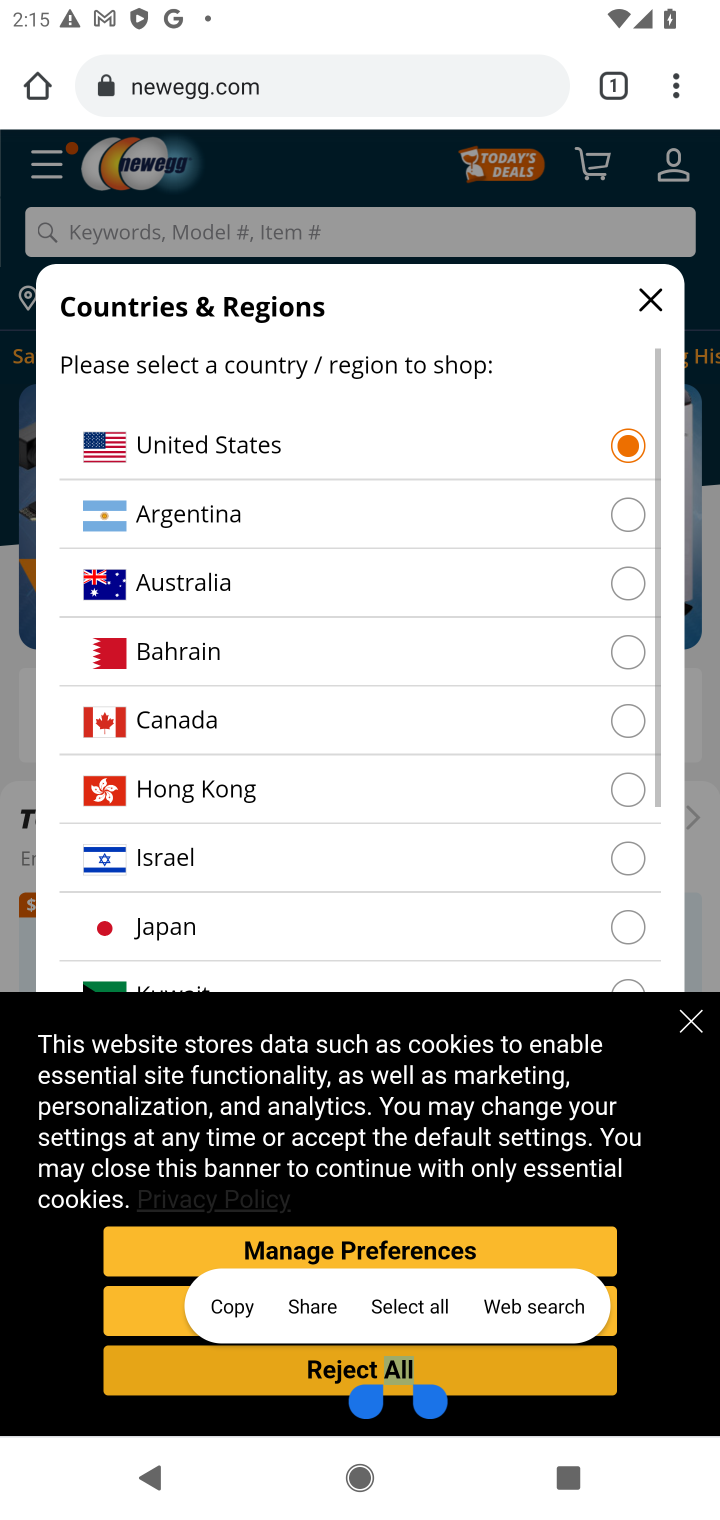
Step 25: click (358, 1369)
Your task to perform on an android device: Clear the cart on newegg.com. Search for macbook on newegg.com, select the first entry, add it to the cart, then select checkout. Image 26: 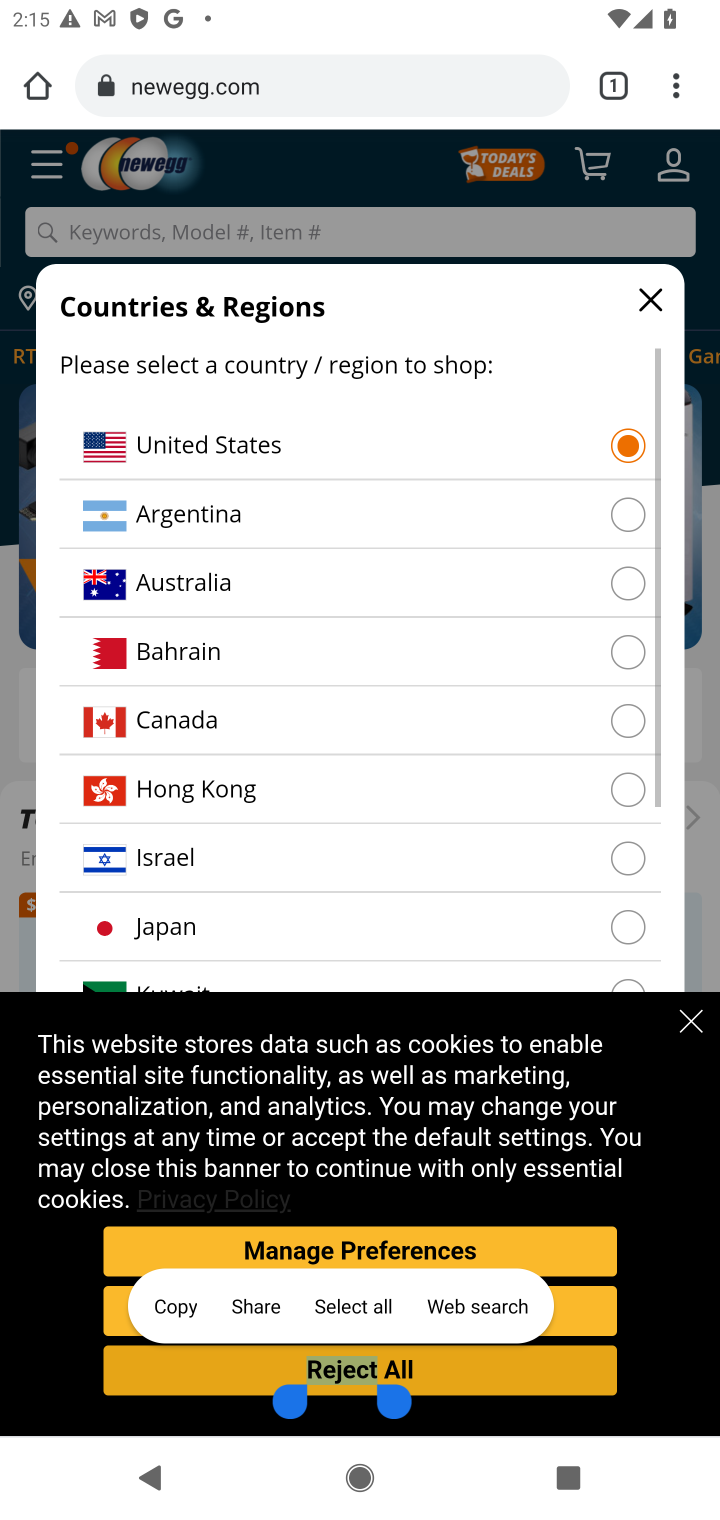
Step 26: click (394, 1366)
Your task to perform on an android device: Clear the cart on newegg.com. Search for macbook on newegg.com, select the first entry, add it to the cart, then select checkout. Image 27: 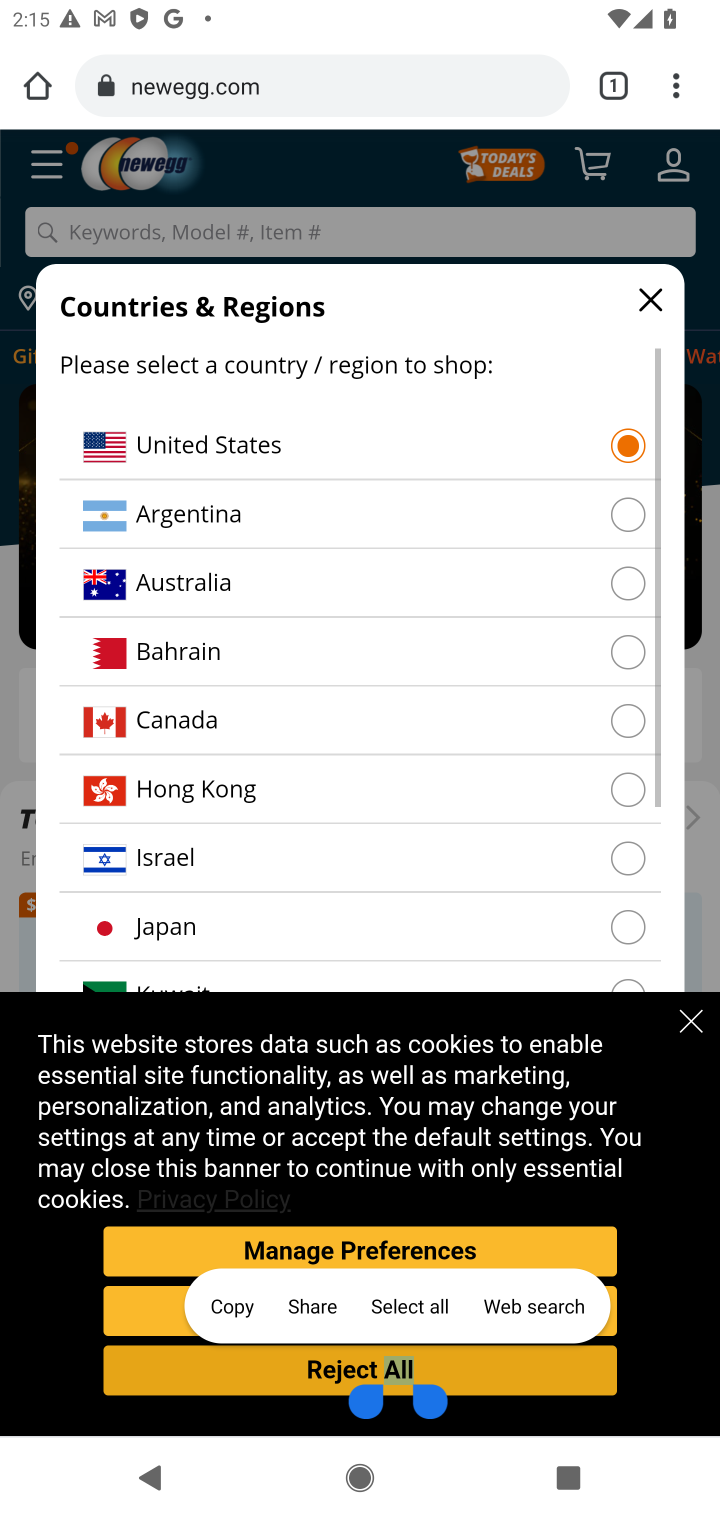
Step 27: click (649, 305)
Your task to perform on an android device: Clear the cart on newegg.com. Search for macbook on newegg.com, select the first entry, add it to the cart, then select checkout. Image 28: 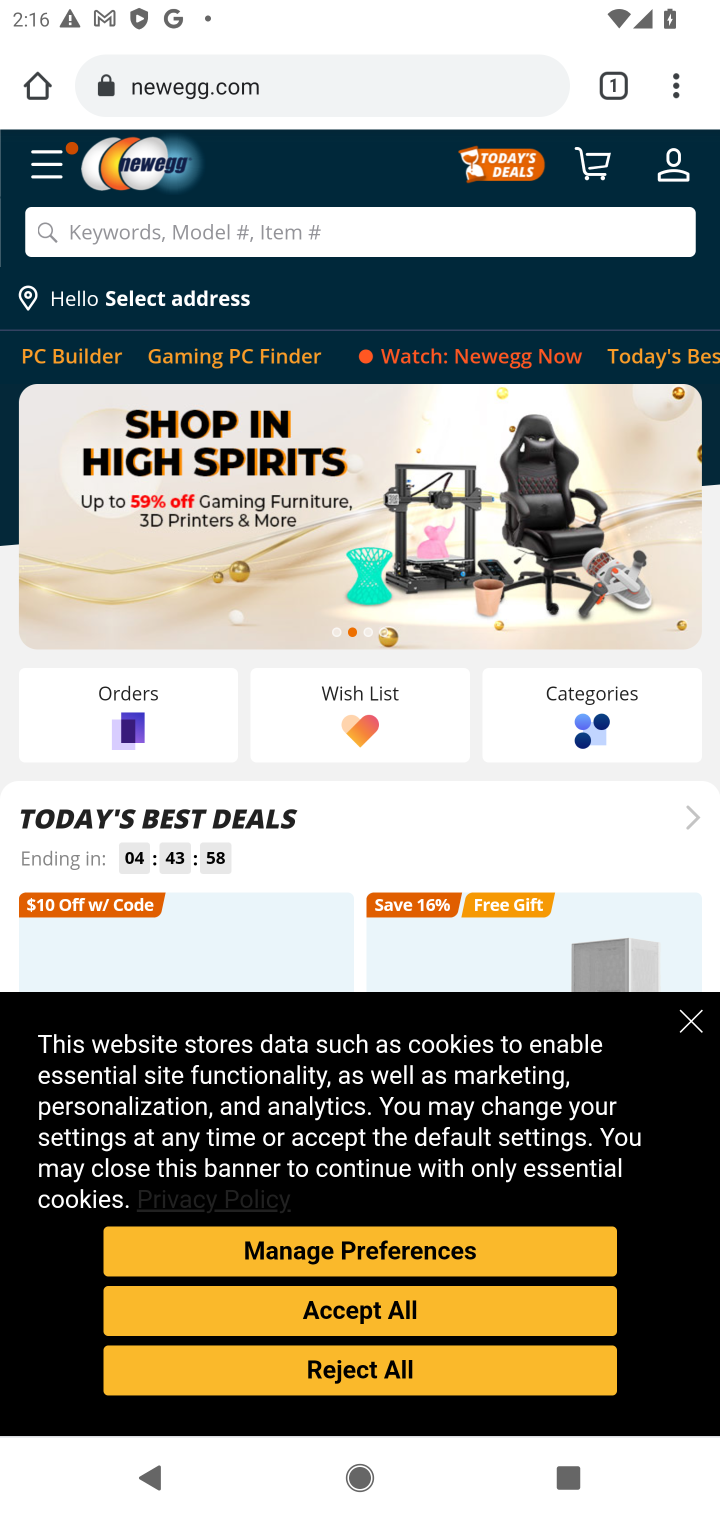
Step 28: click (261, 232)
Your task to perform on an android device: Clear the cart on newegg.com. Search for macbook on newegg.com, select the first entry, add it to the cart, then select checkout. Image 29: 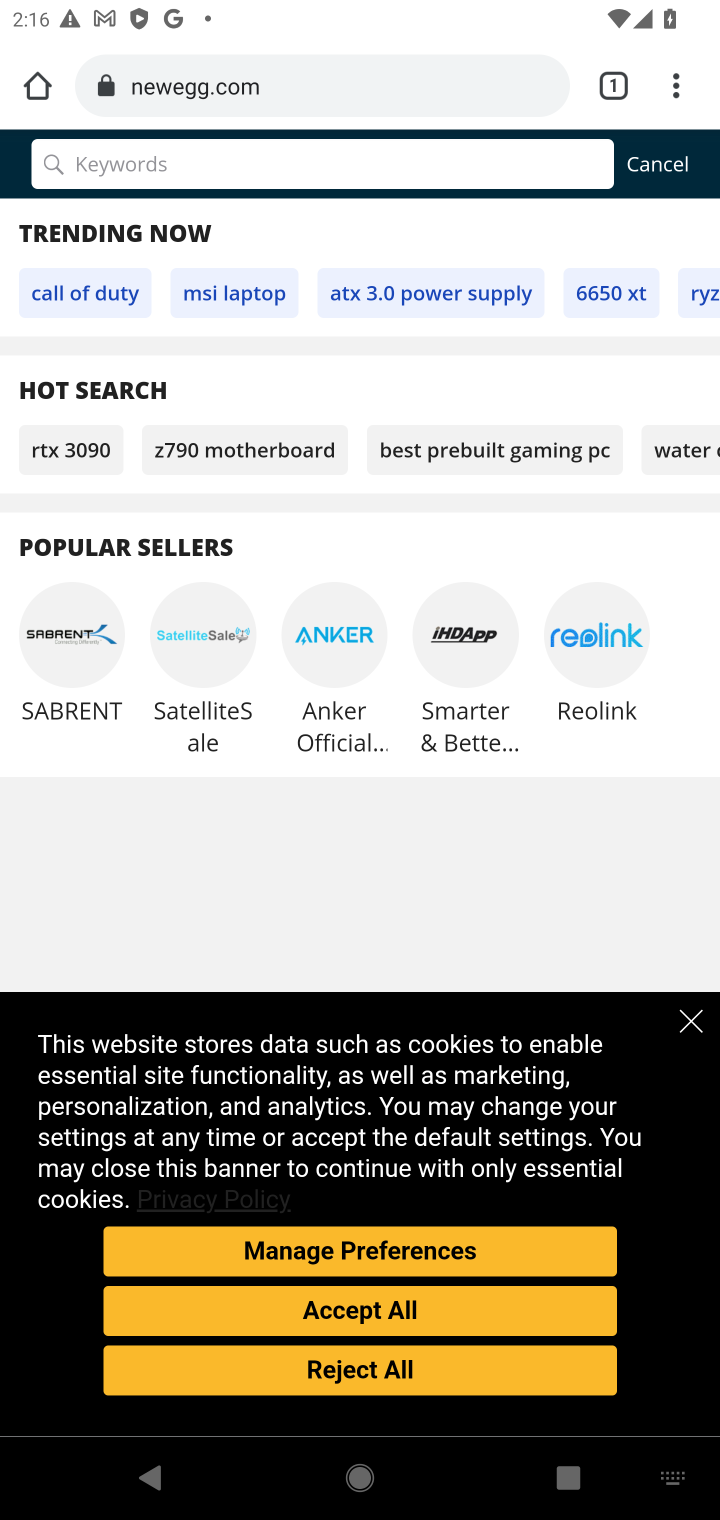
Step 29: click (248, 230)
Your task to perform on an android device: Clear the cart on newegg.com. Search for macbook on newegg.com, select the first entry, add it to the cart, then select checkout. Image 30: 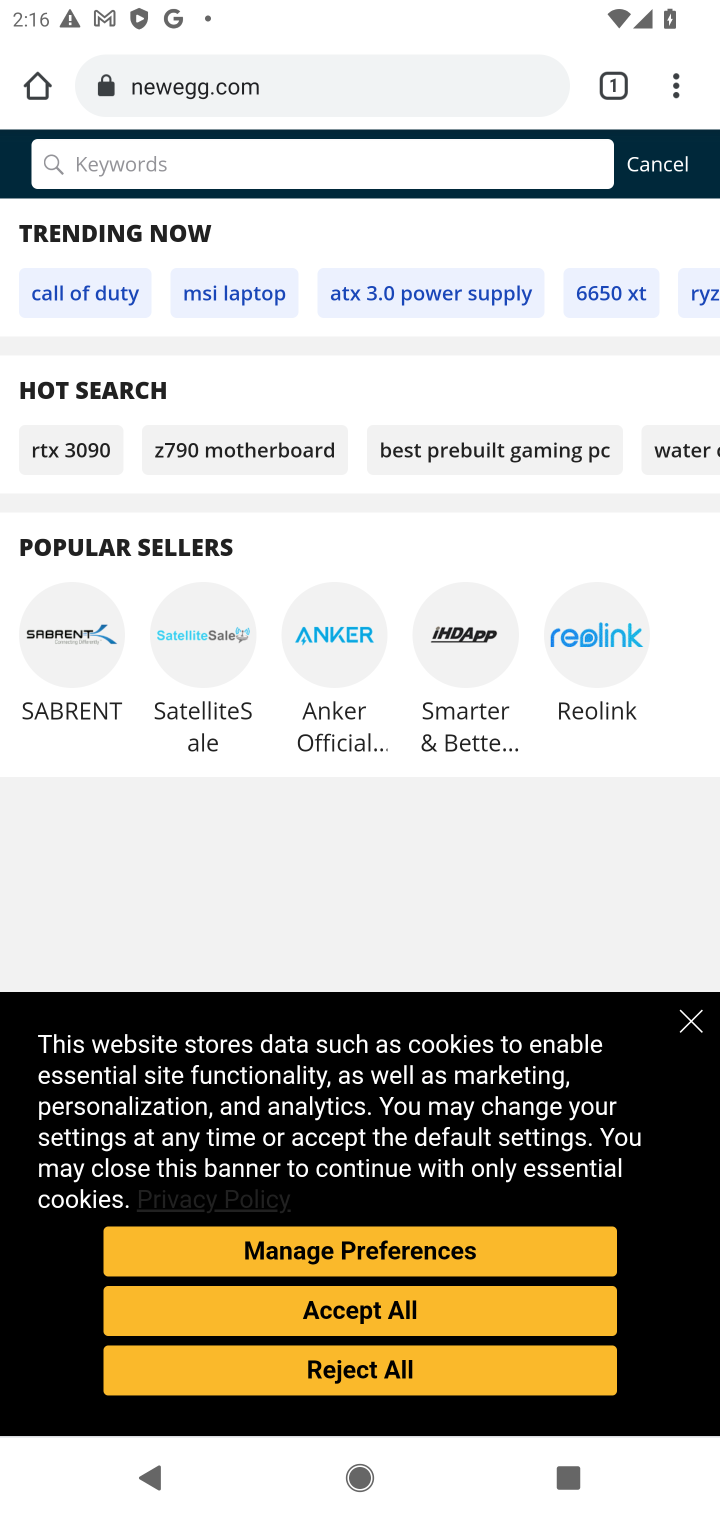
Step 30: type "macbook "
Your task to perform on an android device: Clear the cart on newegg.com. Search for macbook on newegg.com, select the first entry, add it to the cart, then select checkout. Image 31: 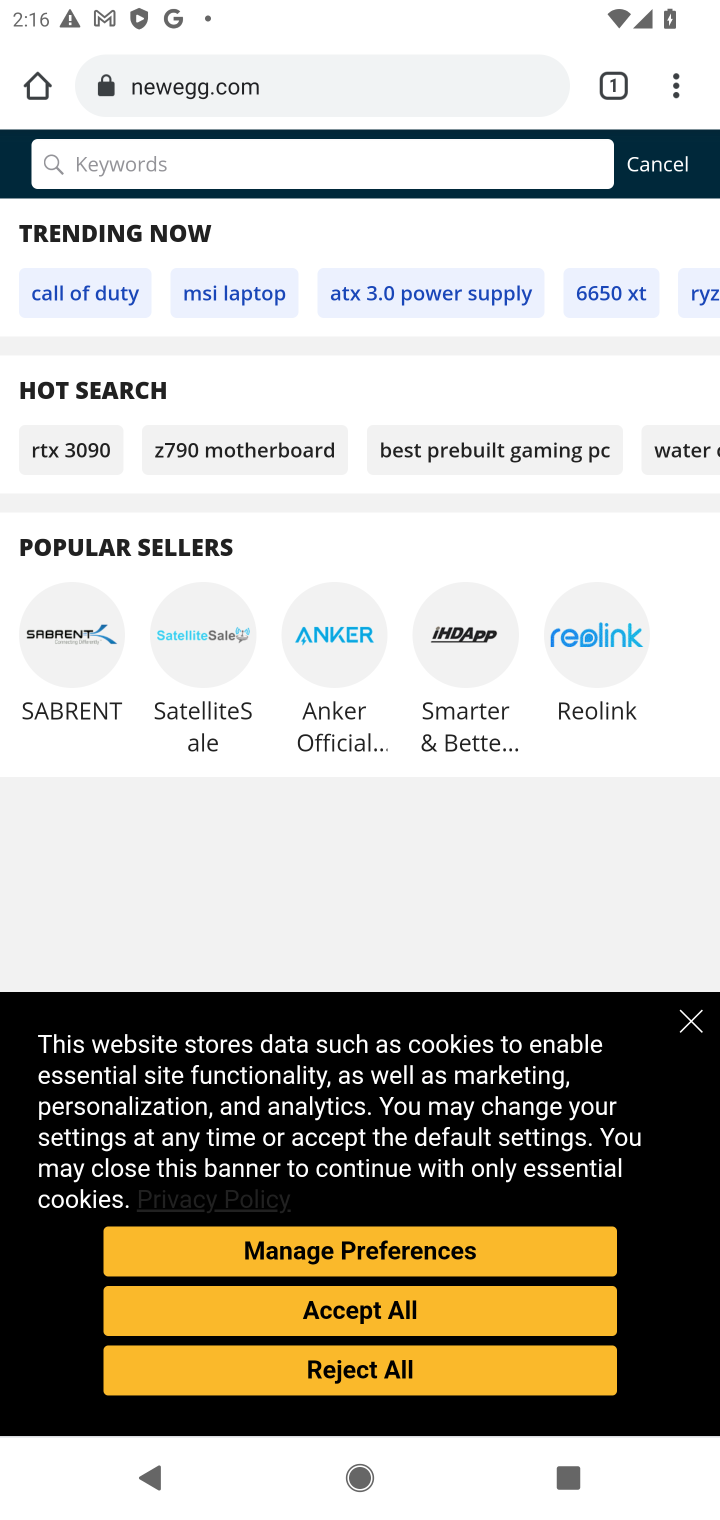
Step 31: press enter
Your task to perform on an android device: Clear the cart on newegg.com. Search for macbook on newegg.com, select the first entry, add it to the cart, then select checkout. Image 32: 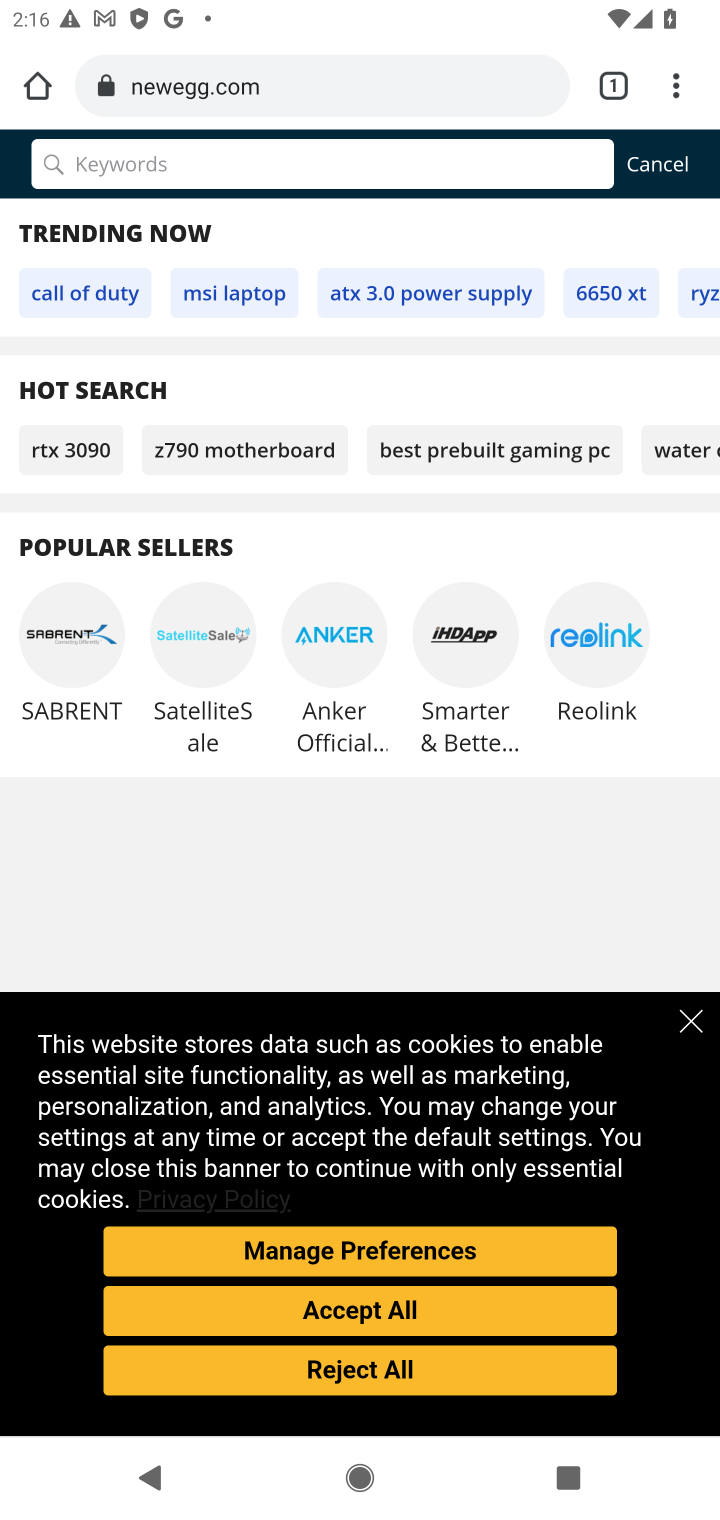
Step 32: task complete